Your task to perform on an android device: Search for the best rated circular saw on Lowes.com Image 0: 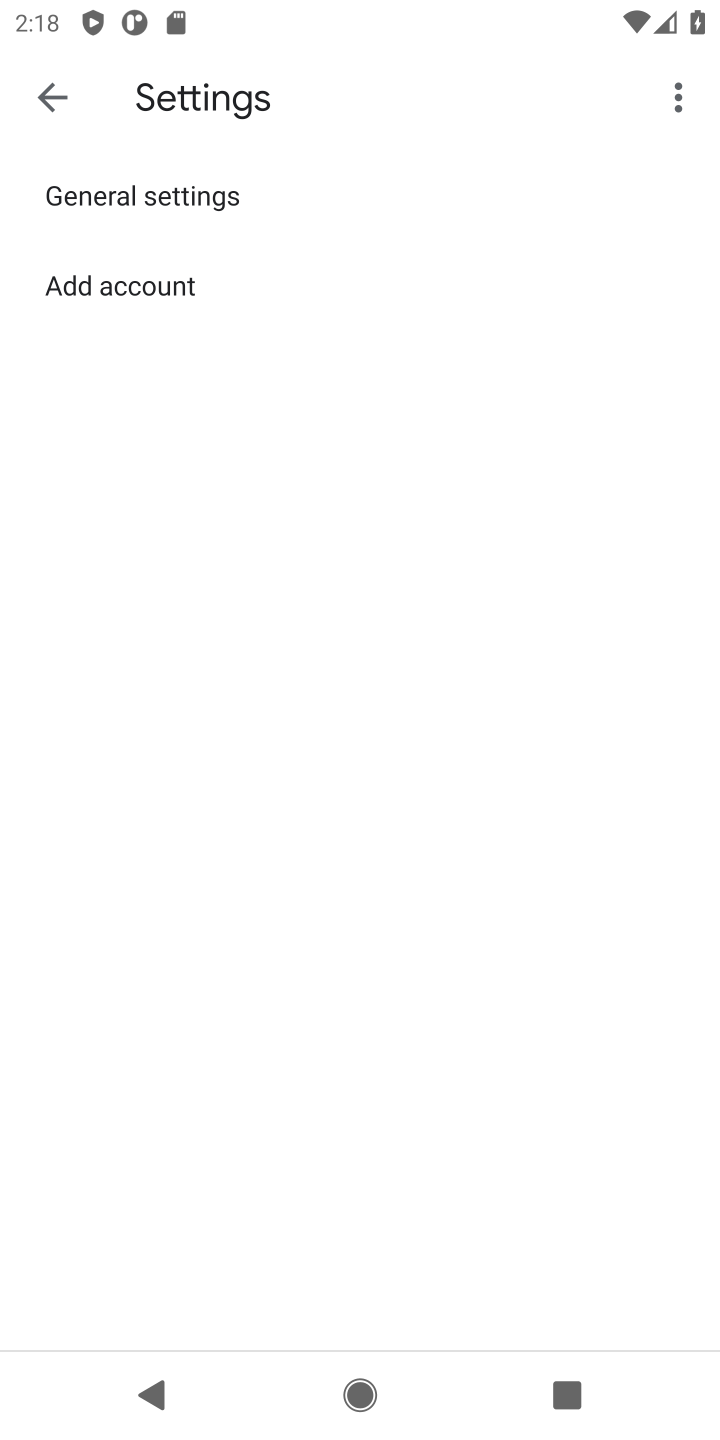
Step 0: click (312, 1419)
Your task to perform on an android device: Search for the best rated circular saw on Lowes.com Image 1: 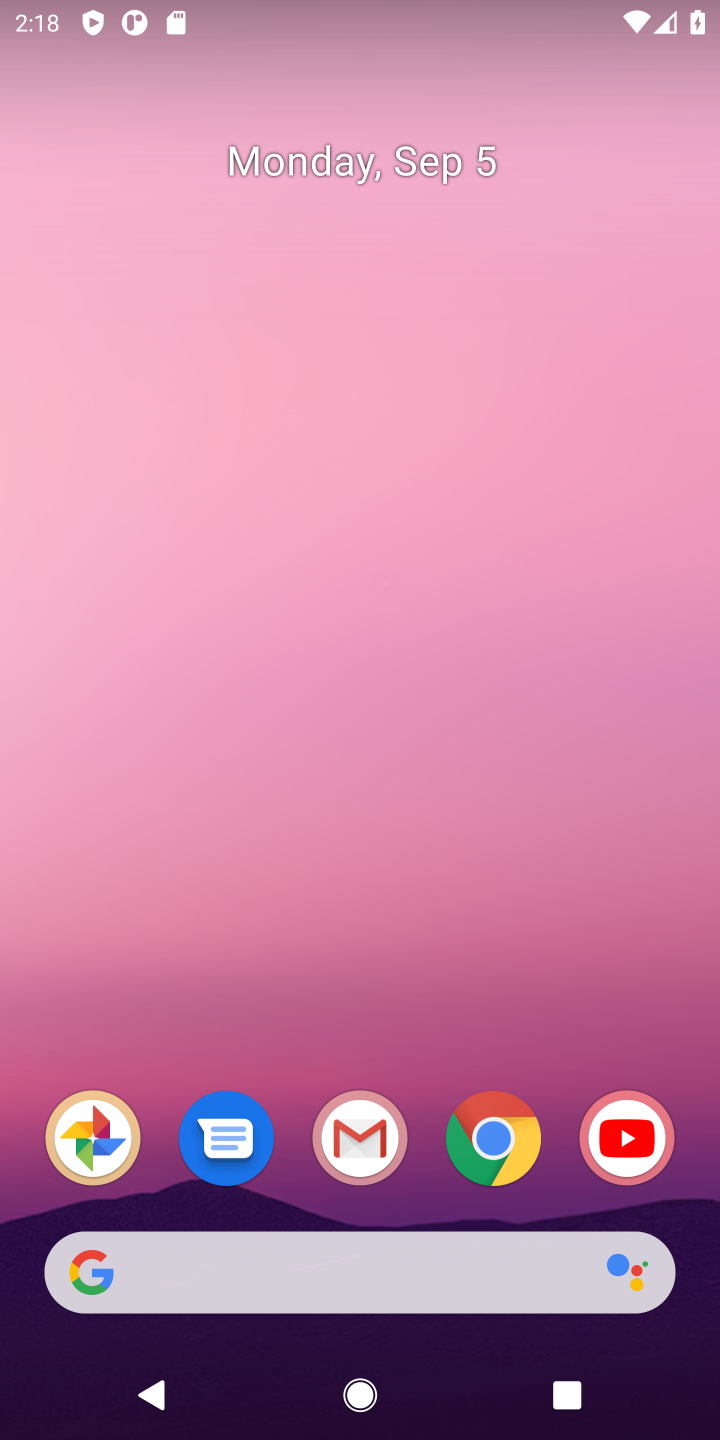
Step 1: press home button
Your task to perform on an android device: Search for the best rated circular saw on Lowes.com Image 2: 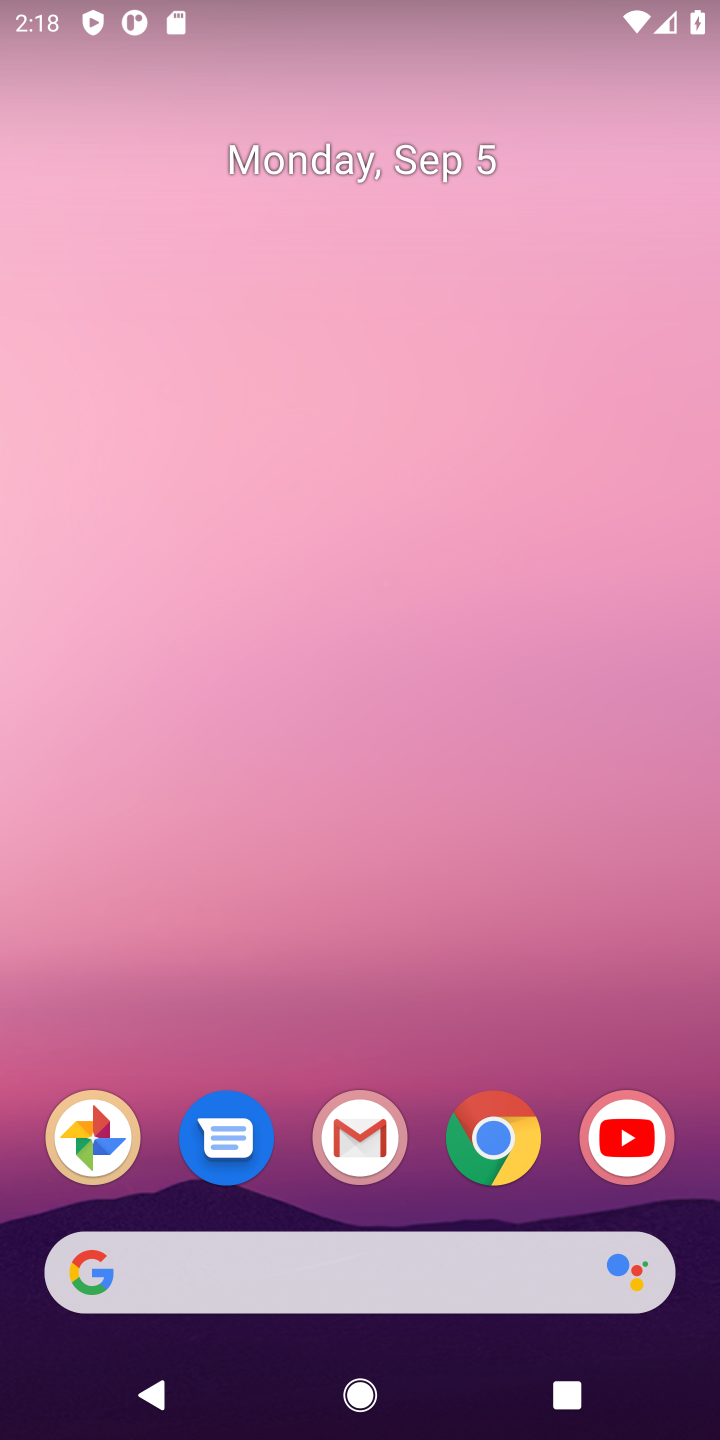
Step 2: click (462, 1151)
Your task to perform on an android device: Search for the best rated circular saw on Lowes.com Image 3: 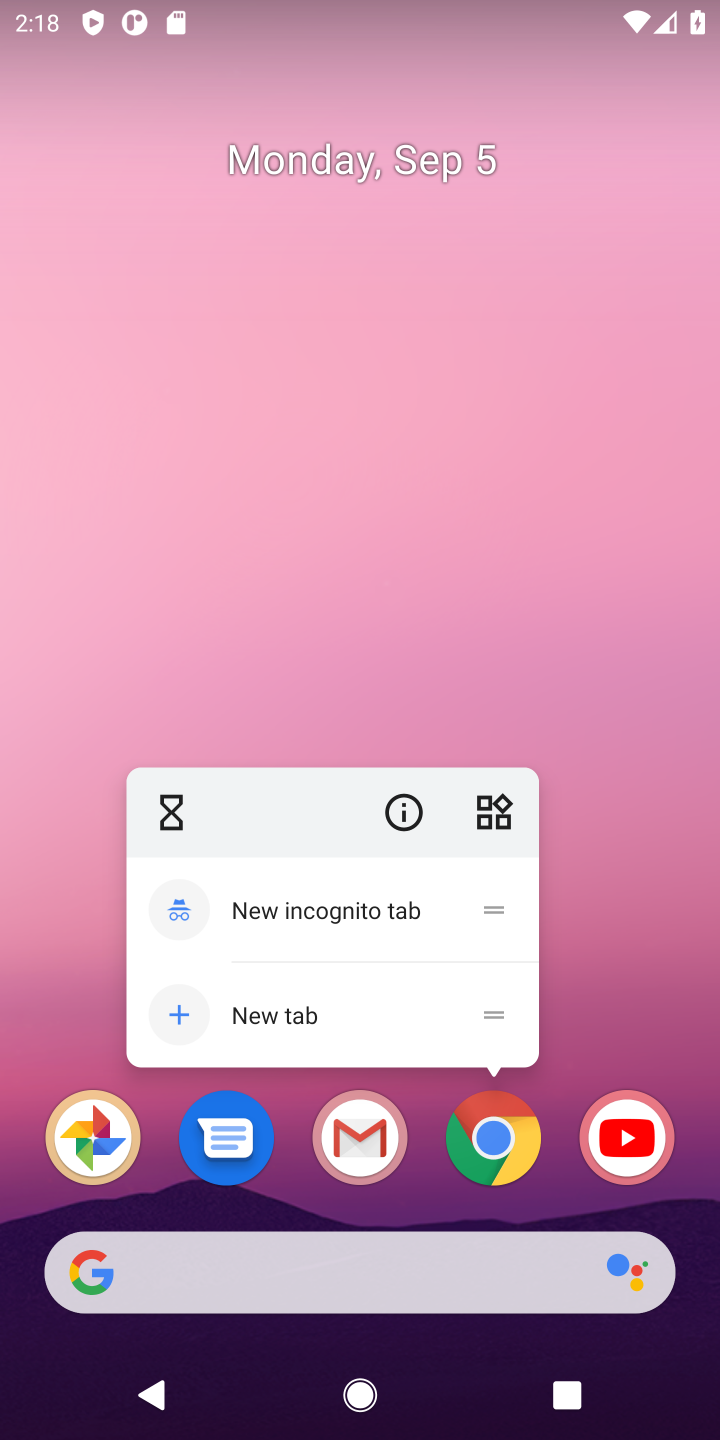
Step 3: click (525, 1143)
Your task to perform on an android device: Search for the best rated circular saw on Lowes.com Image 4: 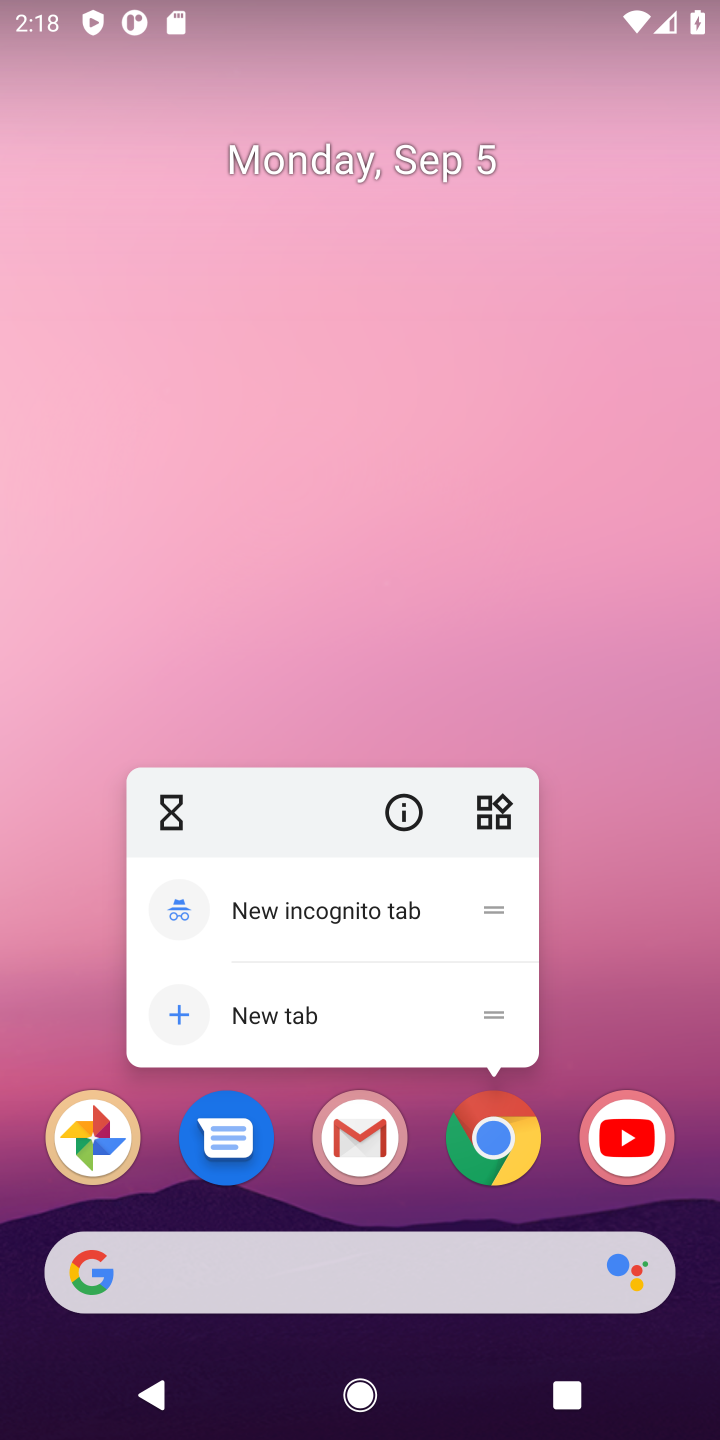
Step 4: click (487, 1151)
Your task to perform on an android device: Search for the best rated circular saw on Lowes.com Image 5: 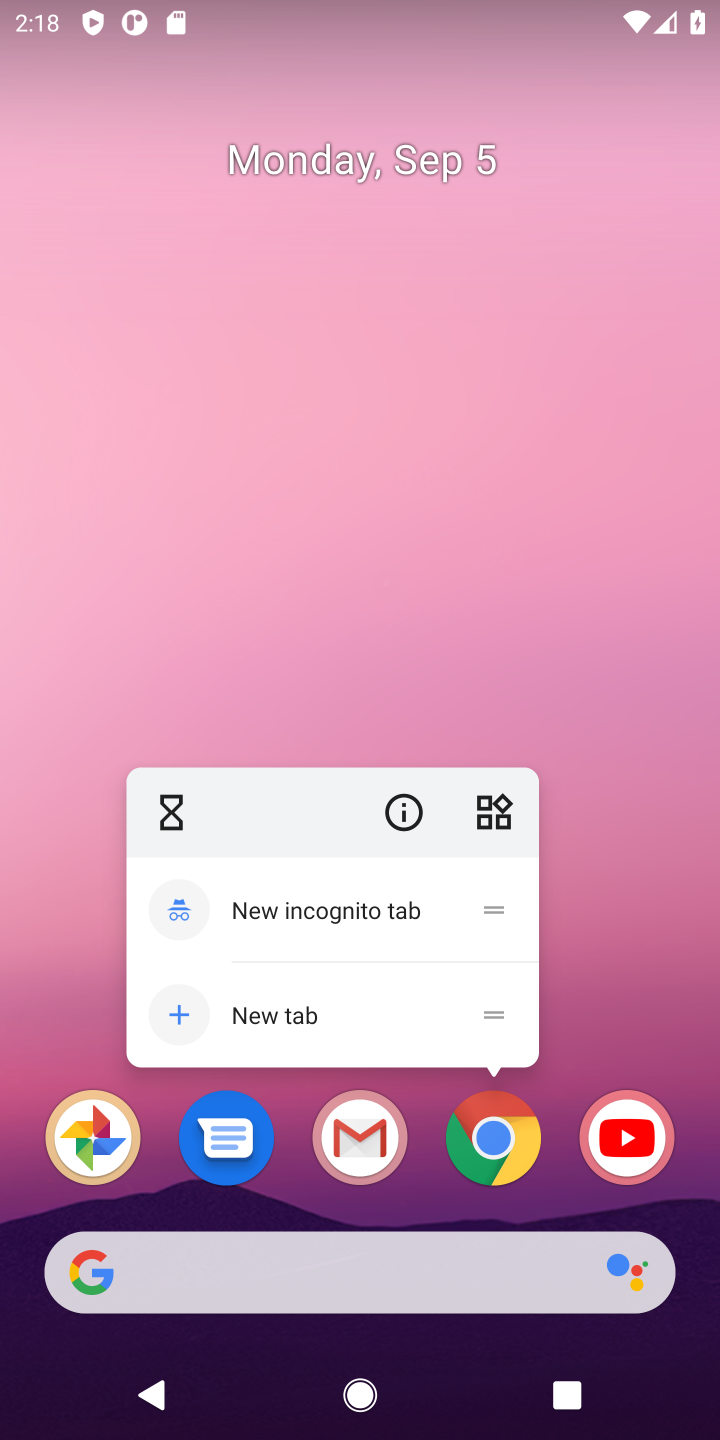
Step 5: click (487, 1141)
Your task to perform on an android device: Search for the best rated circular saw on Lowes.com Image 6: 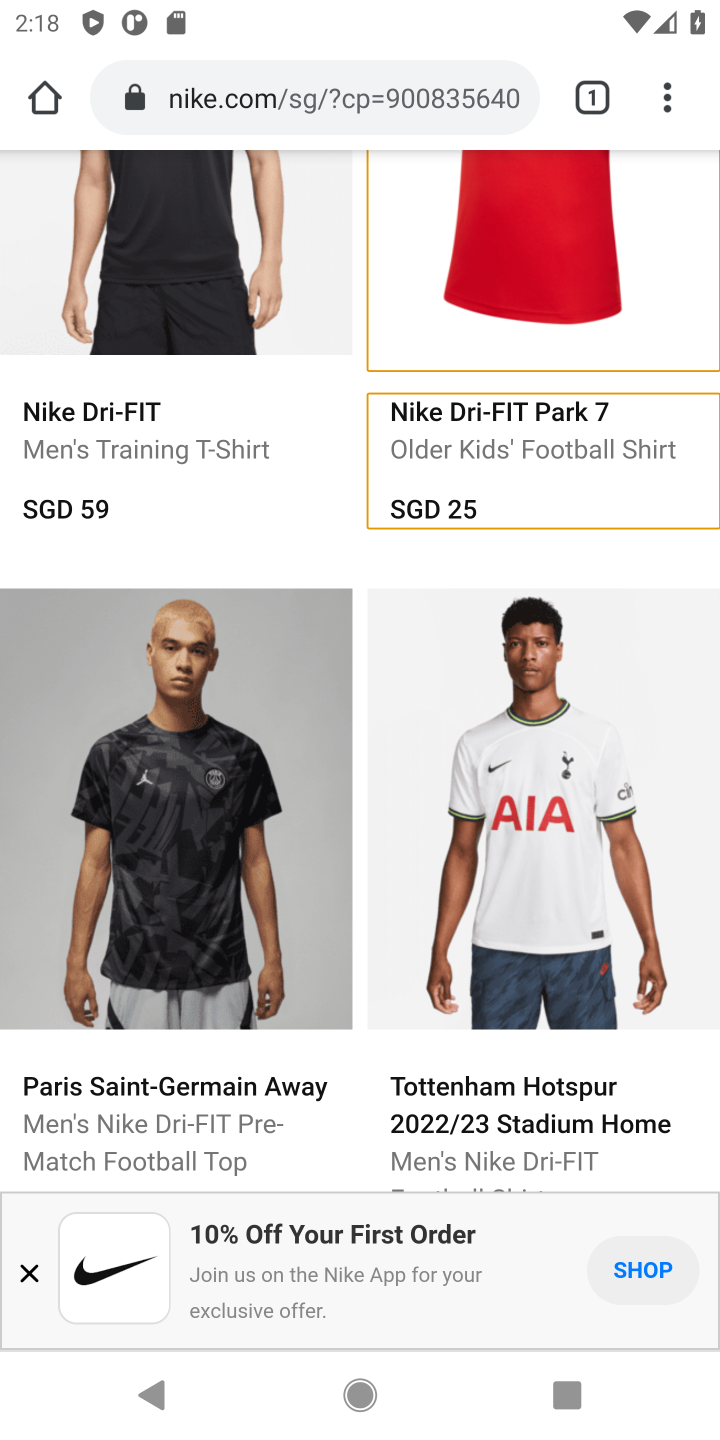
Step 6: click (335, 94)
Your task to perform on an android device: Search for the best rated circular saw on Lowes.com Image 7: 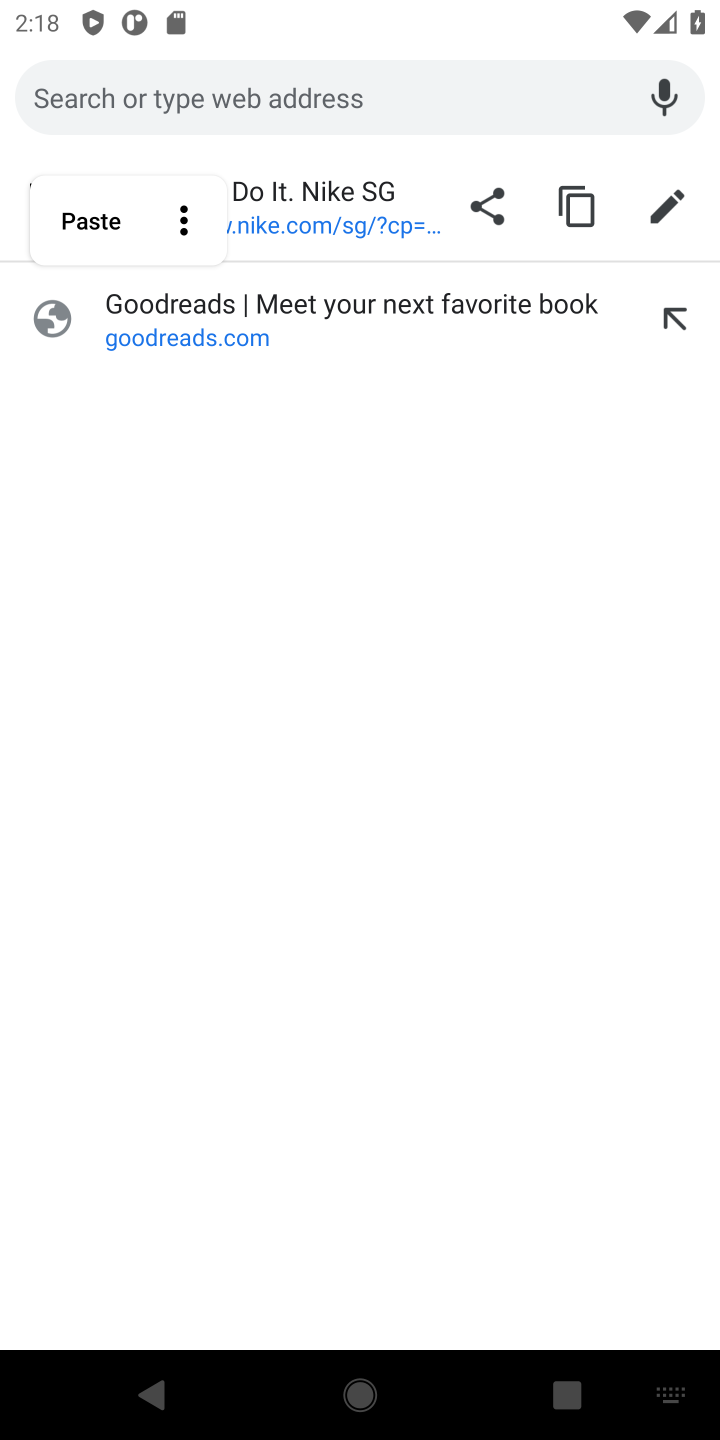
Step 7: type "lowes.com"
Your task to perform on an android device: Search for the best rated circular saw on Lowes.com Image 8: 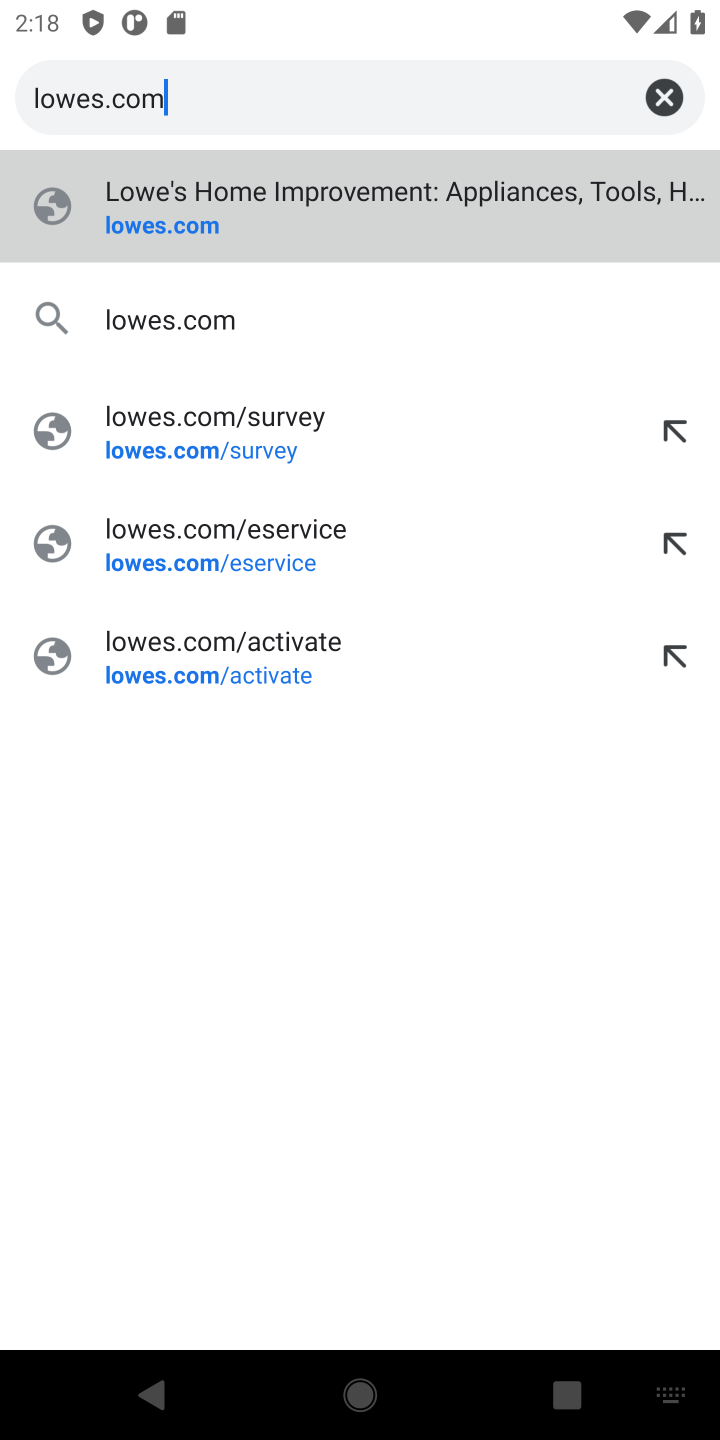
Step 8: type ""
Your task to perform on an android device: Search for the best rated circular saw on Lowes.com Image 9: 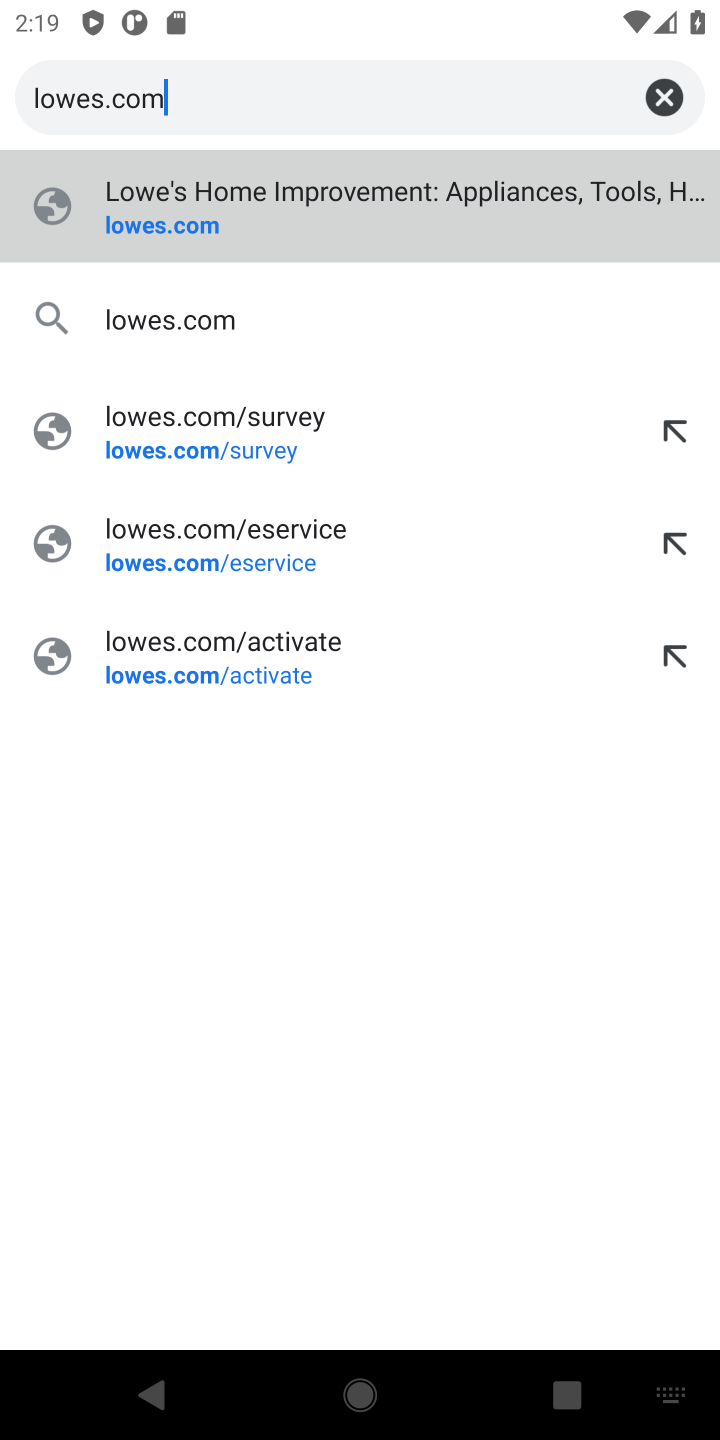
Step 9: click (173, 435)
Your task to perform on an android device: Search for the best rated circular saw on Lowes.com Image 10: 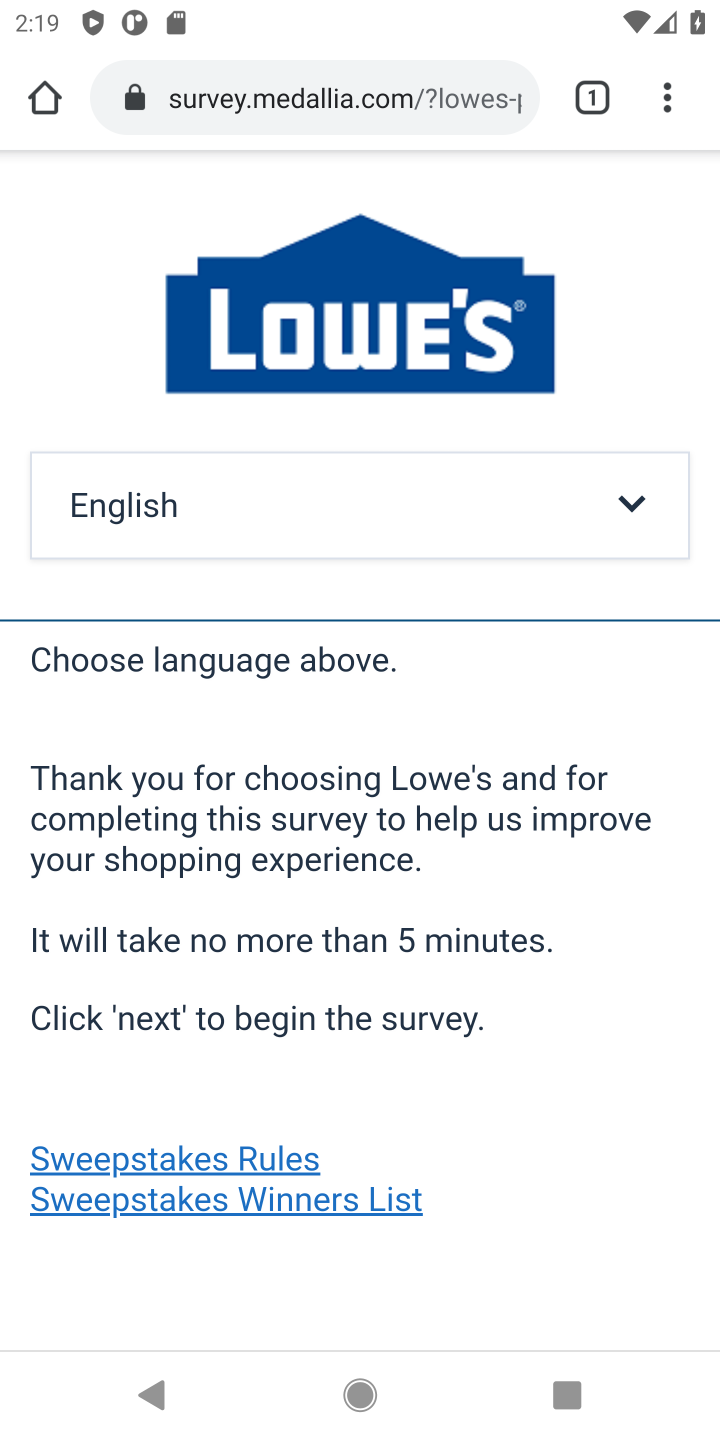
Step 10: click (348, 504)
Your task to perform on an android device: Search for the best rated circular saw on Lowes.com Image 11: 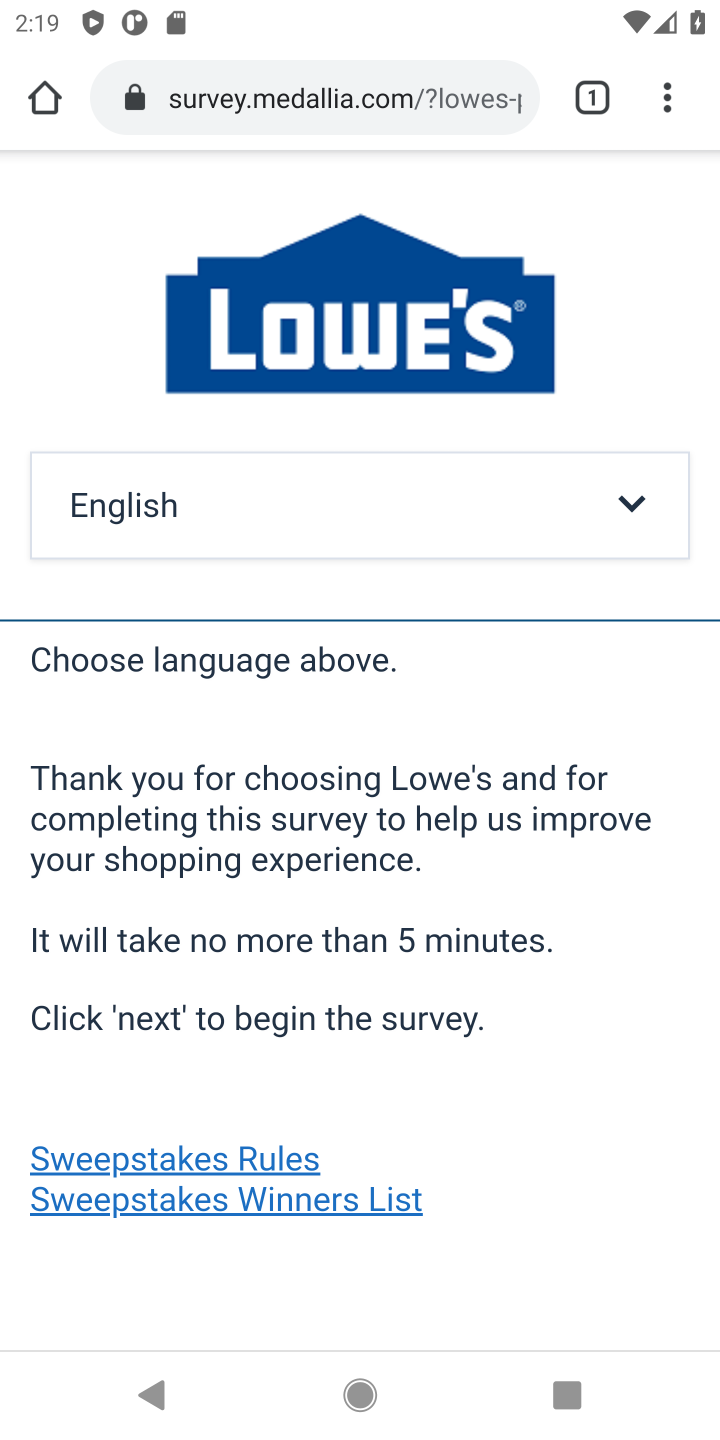
Step 11: click (474, 513)
Your task to perform on an android device: Search for the best rated circular saw on Lowes.com Image 12: 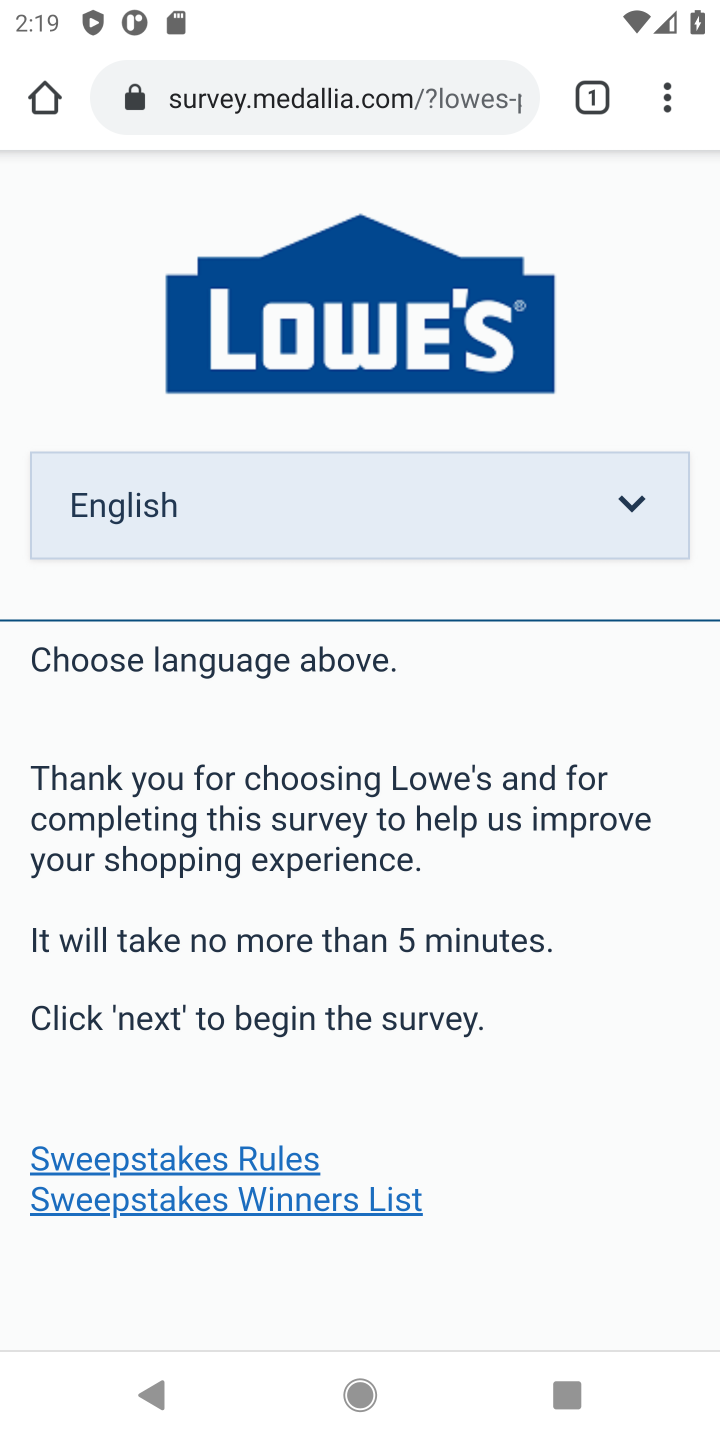
Step 12: click (635, 498)
Your task to perform on an android device: Search for the best rated circular saw on Lowes.com Image 13: 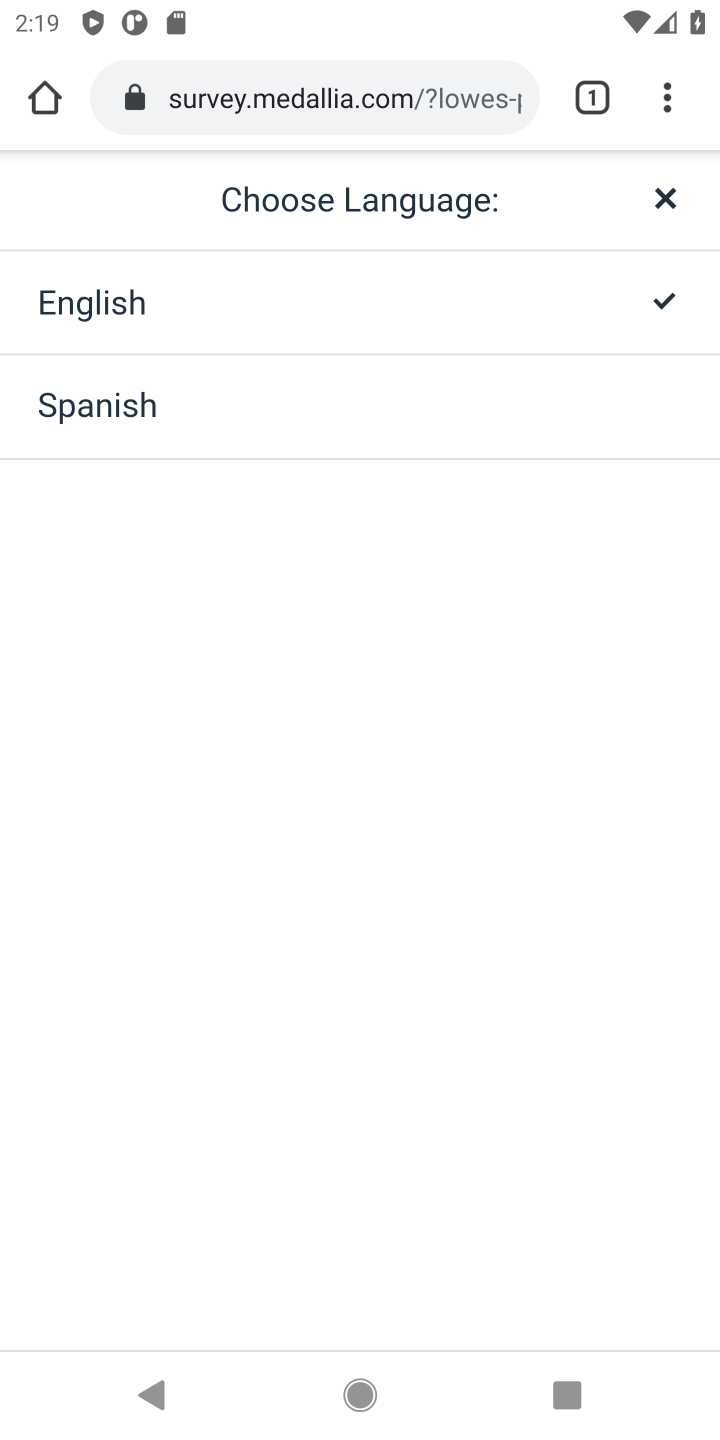
Step 13: click (674, 196)
Your task to perform on an android device: Search for the best rated circular saw on Lowes.com Image 14: 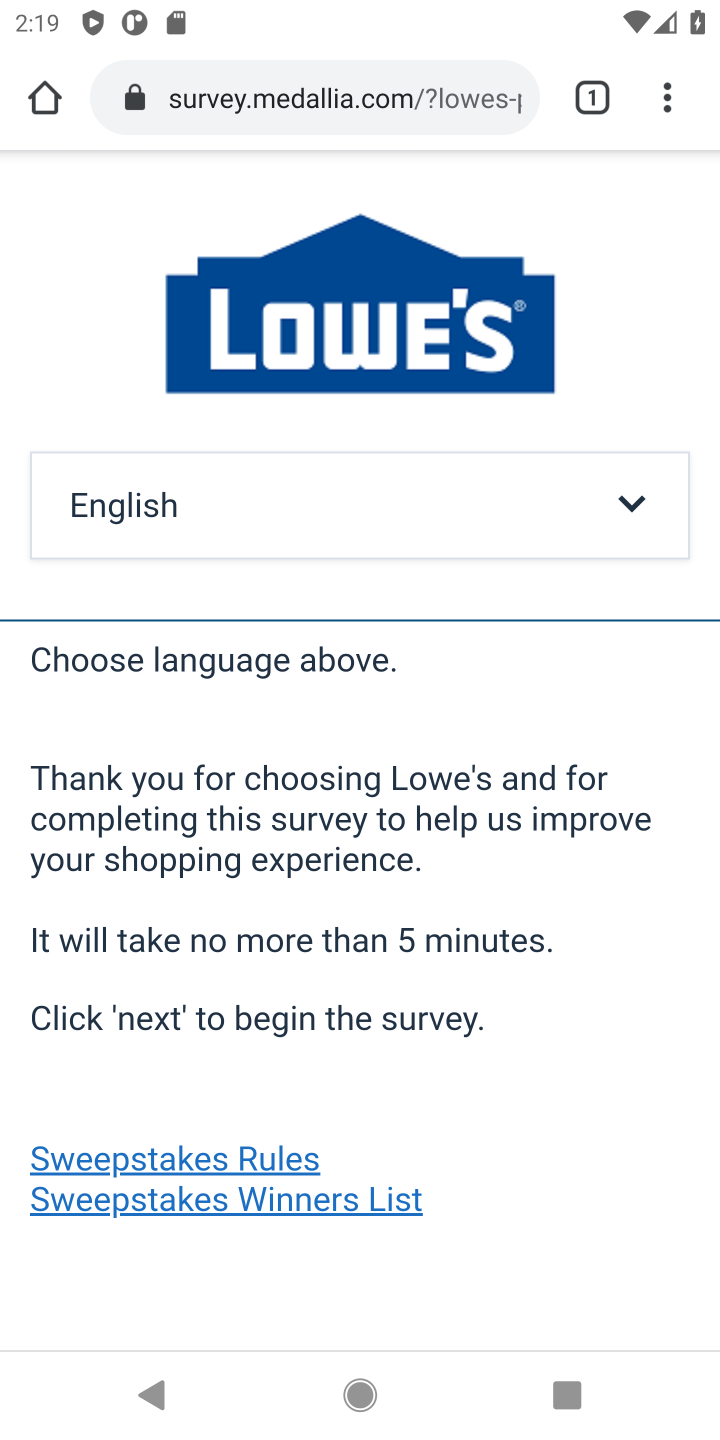
Step 14: click (225, 518)
Your task to perform on an android device: Search for the best rated circular saw on Lowes.com Image 15: 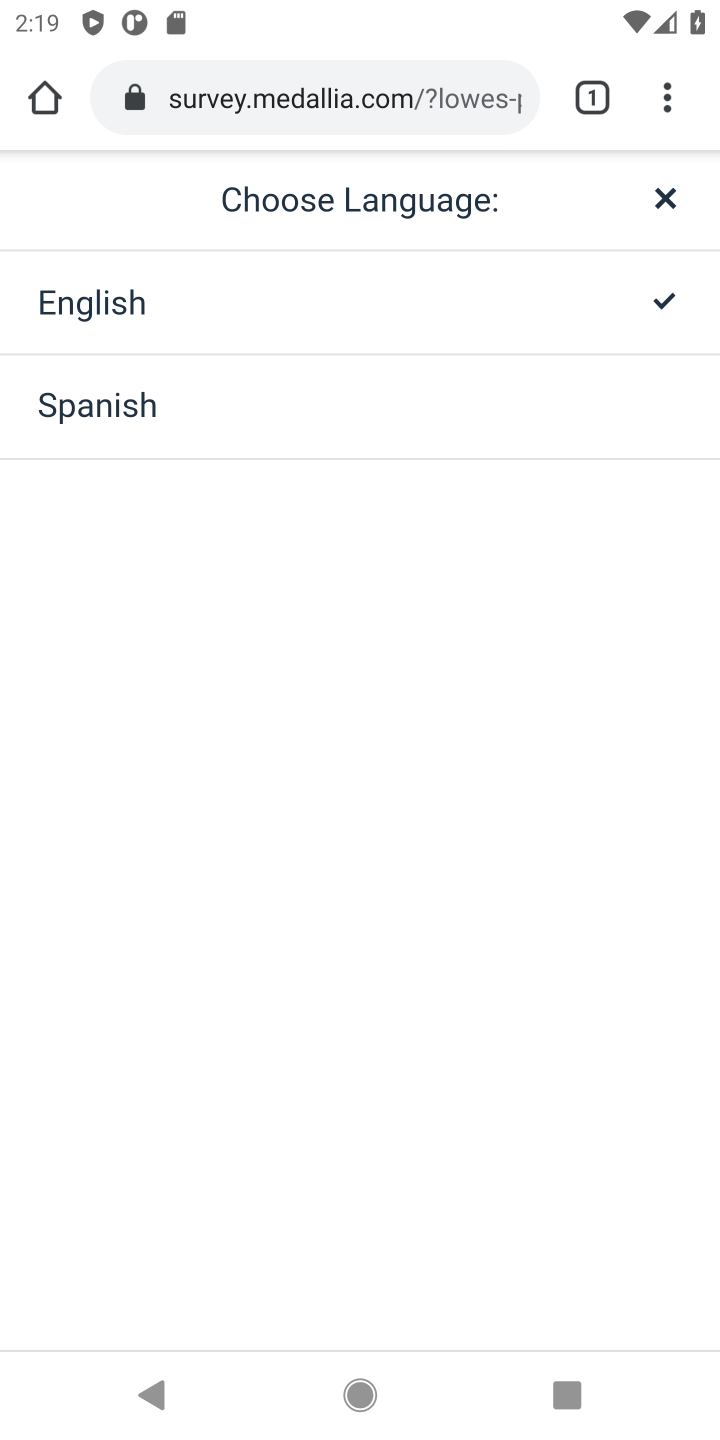
Step 15: click (61, 290)
Your task to perform on an android device: Search for the best rated circular saw on Lowes.com Image 16: 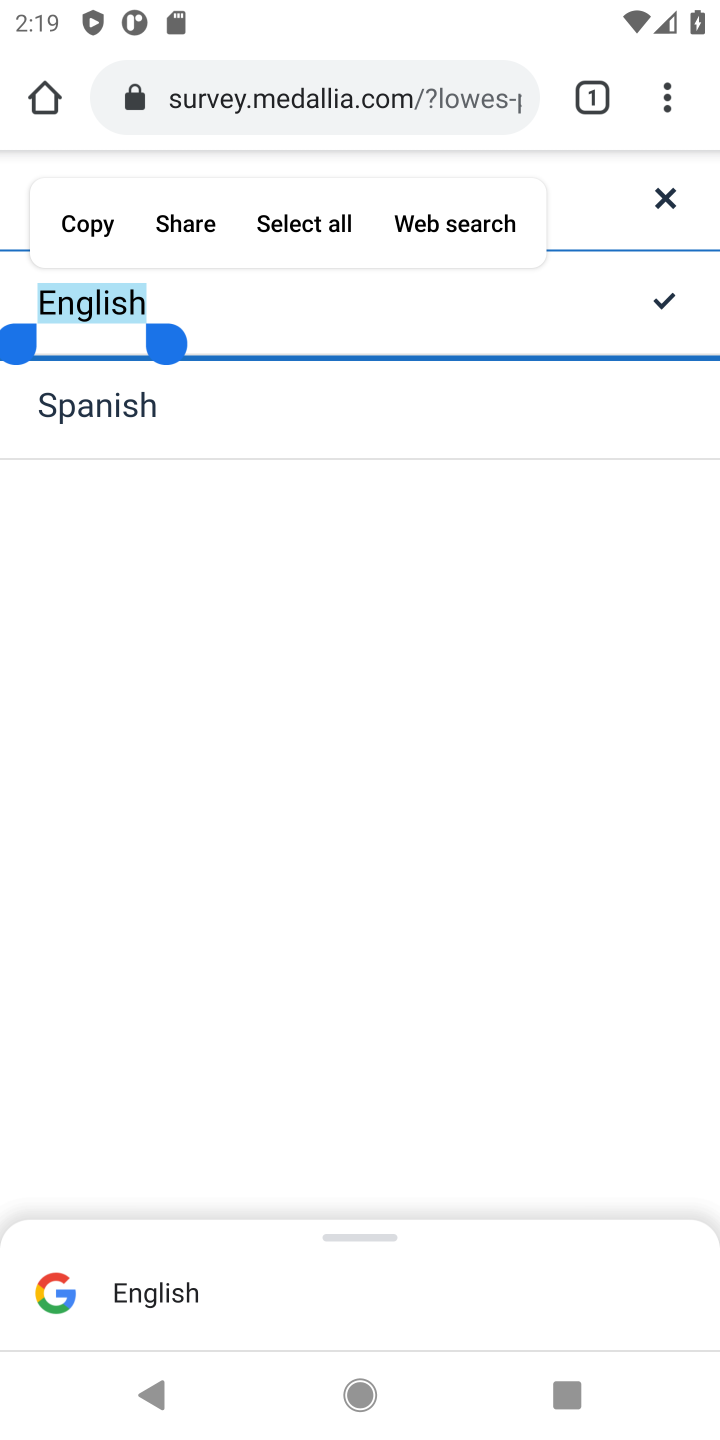
Step 16: click (525, 724)
Your task to perform on an android device: Search for the best rated circular saw on Lowes.com Image 17: 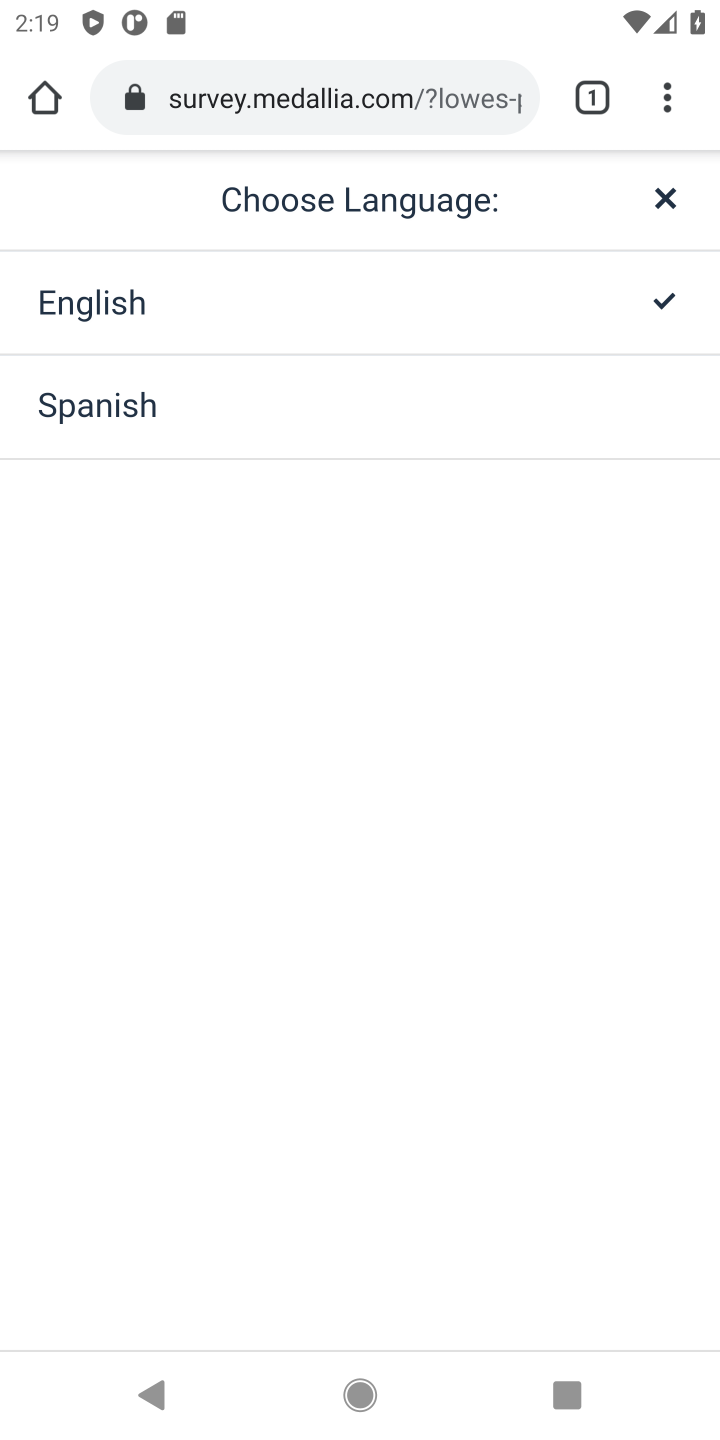
Step 17: click (663, 308)
Your task to perform on an android device: Search for the best rated circular saw on Lowes.com Image 18: 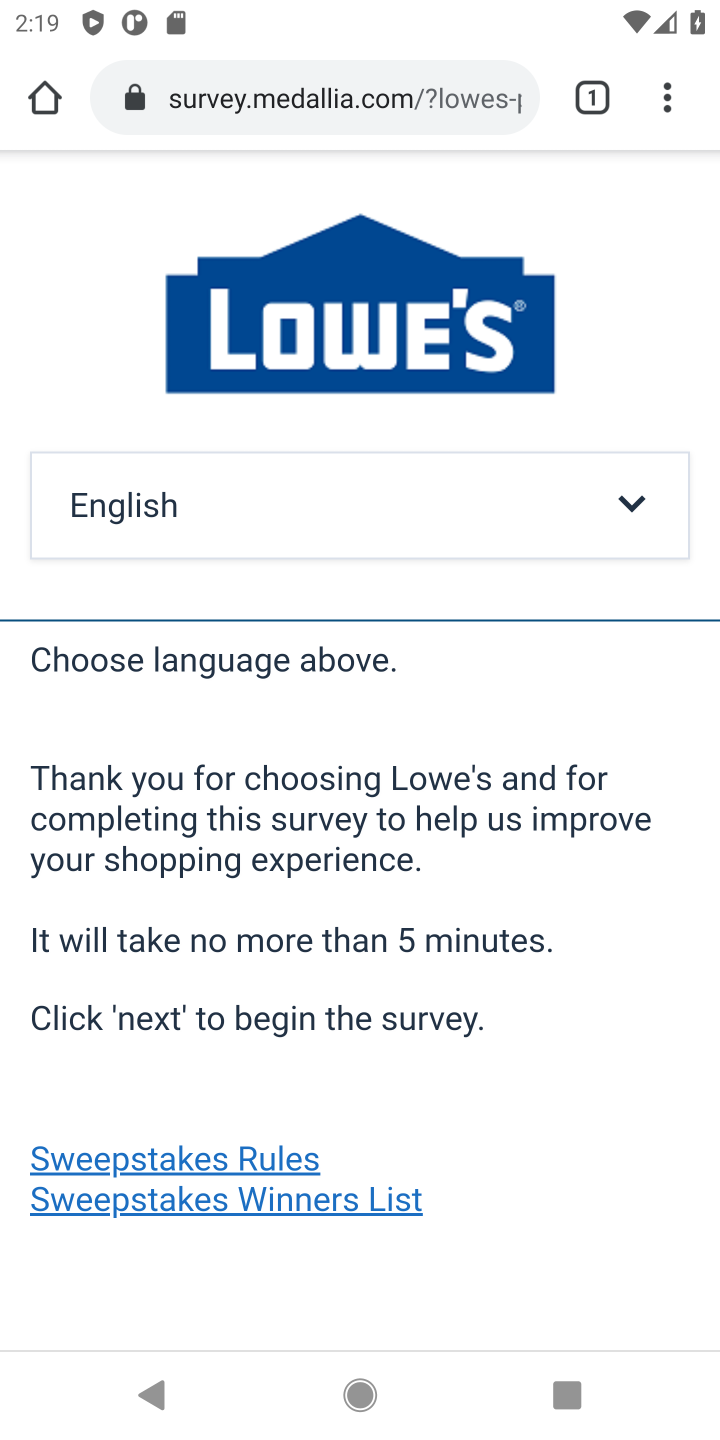
Step 18: click (684, 818)
Your task to perform on an android device: Search for the best rated circular saw on Lowes.com Image 19: 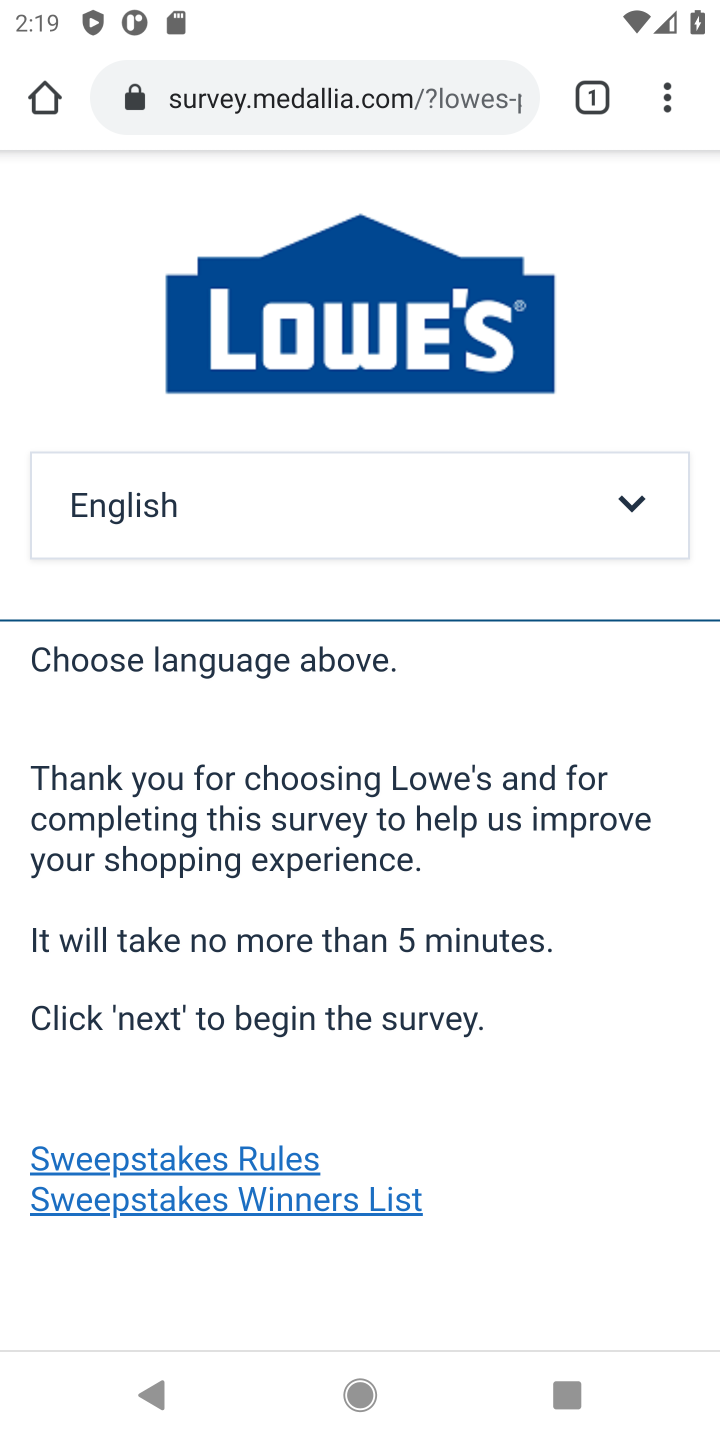
Step 19: drag from (596, 1029) to (569, 514)
Your task to perform on an android device: Search for the best rated circular saw on Lowes.com Image 20: 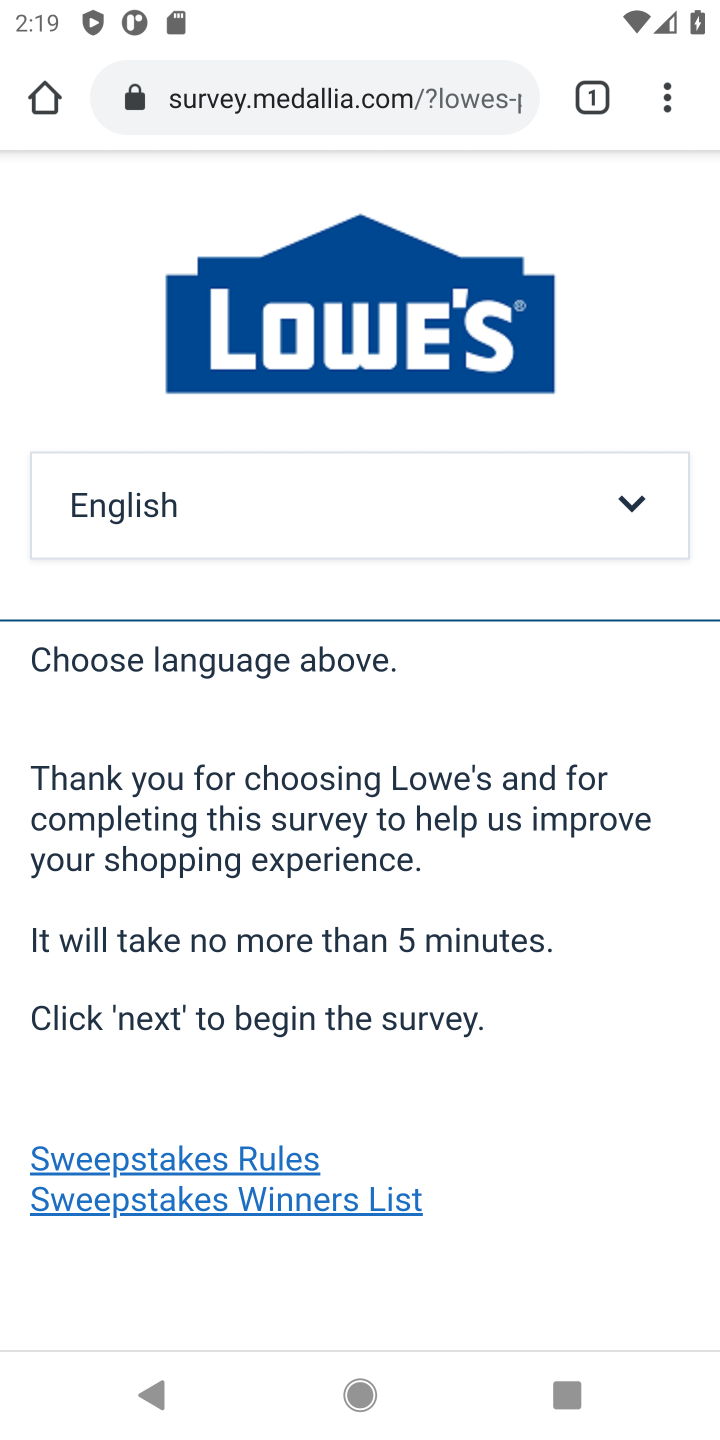
Step 20: press back button
Your task to perform on an android device: Search for the best rated circular saw on Lowes.com Image 21: 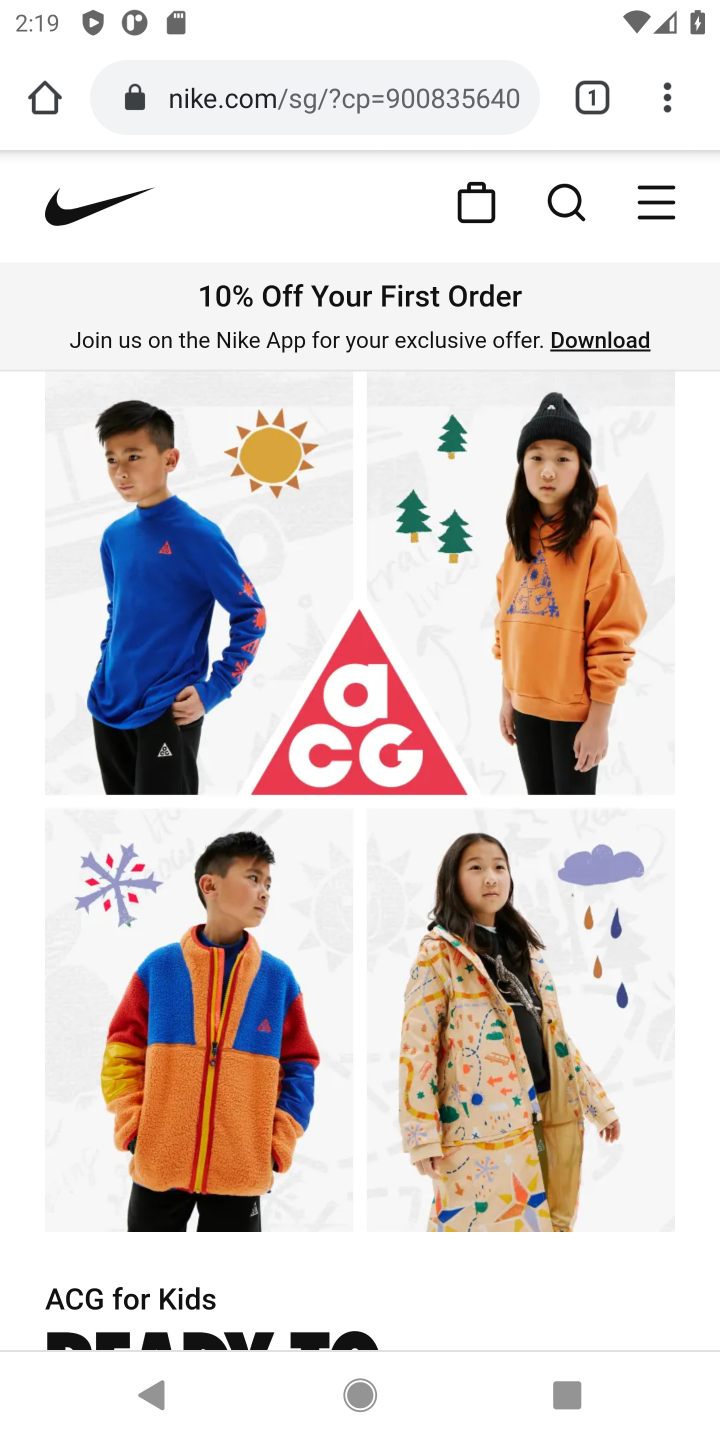
Step 21: click (242, 116)
Your task to perform on an android device: Search for the best rated circular saw on Lowes.com Image 22: 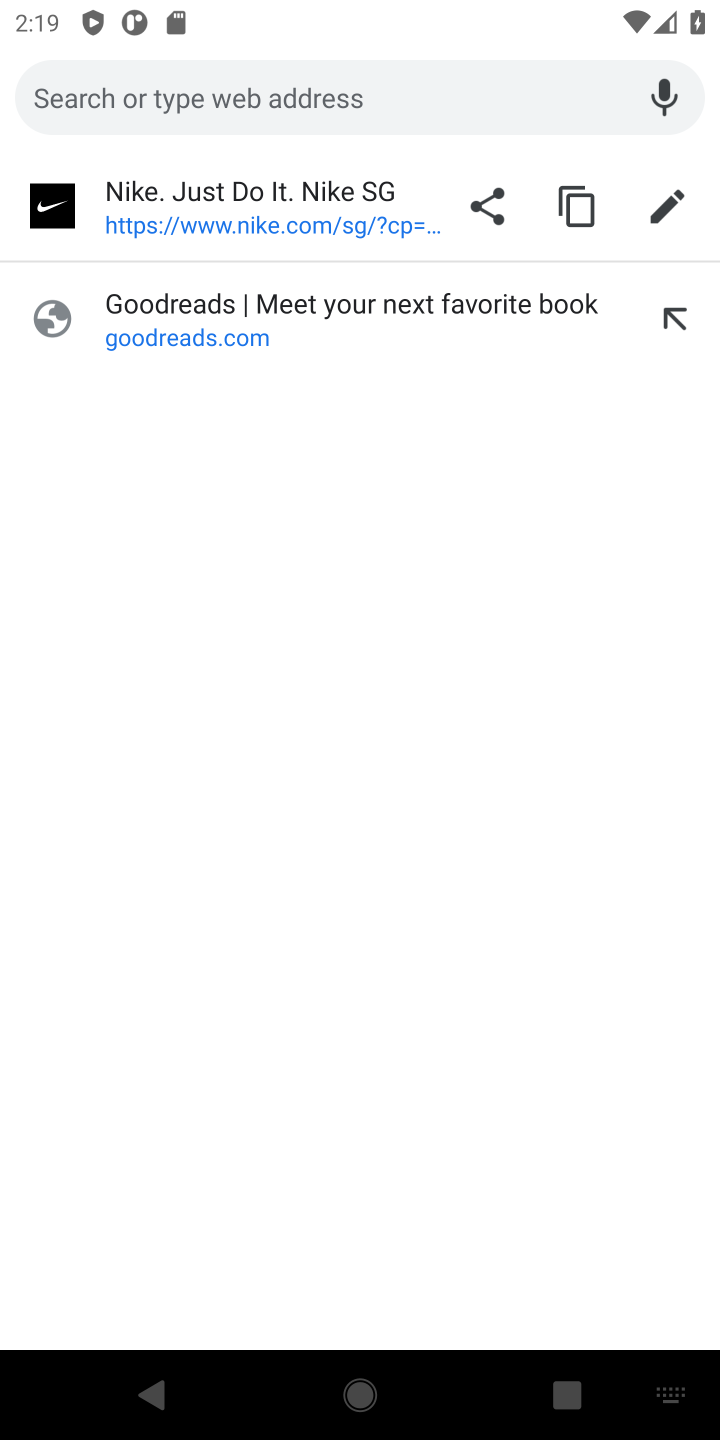
Step 22: type "lowes.com"
Your task to perform on an android device: Search for the best rated circular saw on Lowes.com Image 23: 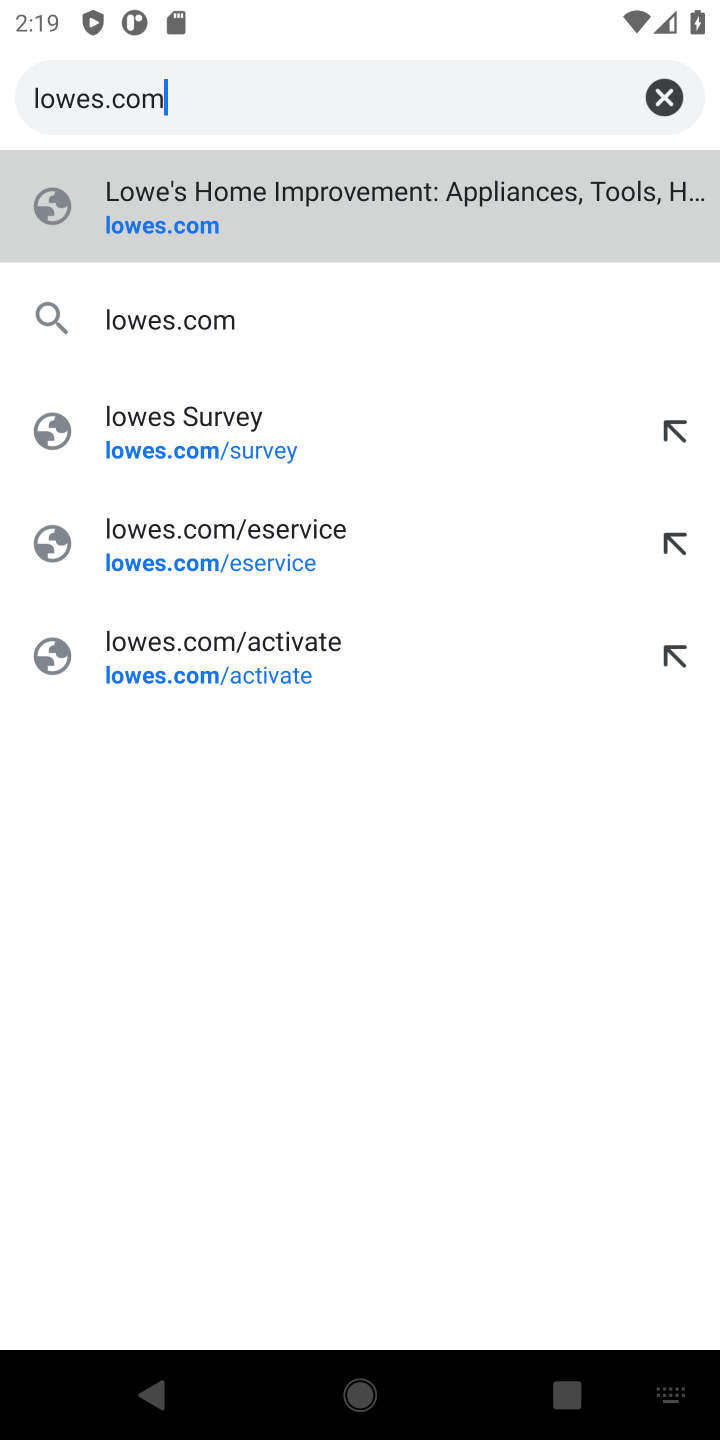
Step 23: click (125, 221)
Your task to perform on an android device: Search for the best rated circular saw on Lowes.com Image 24: 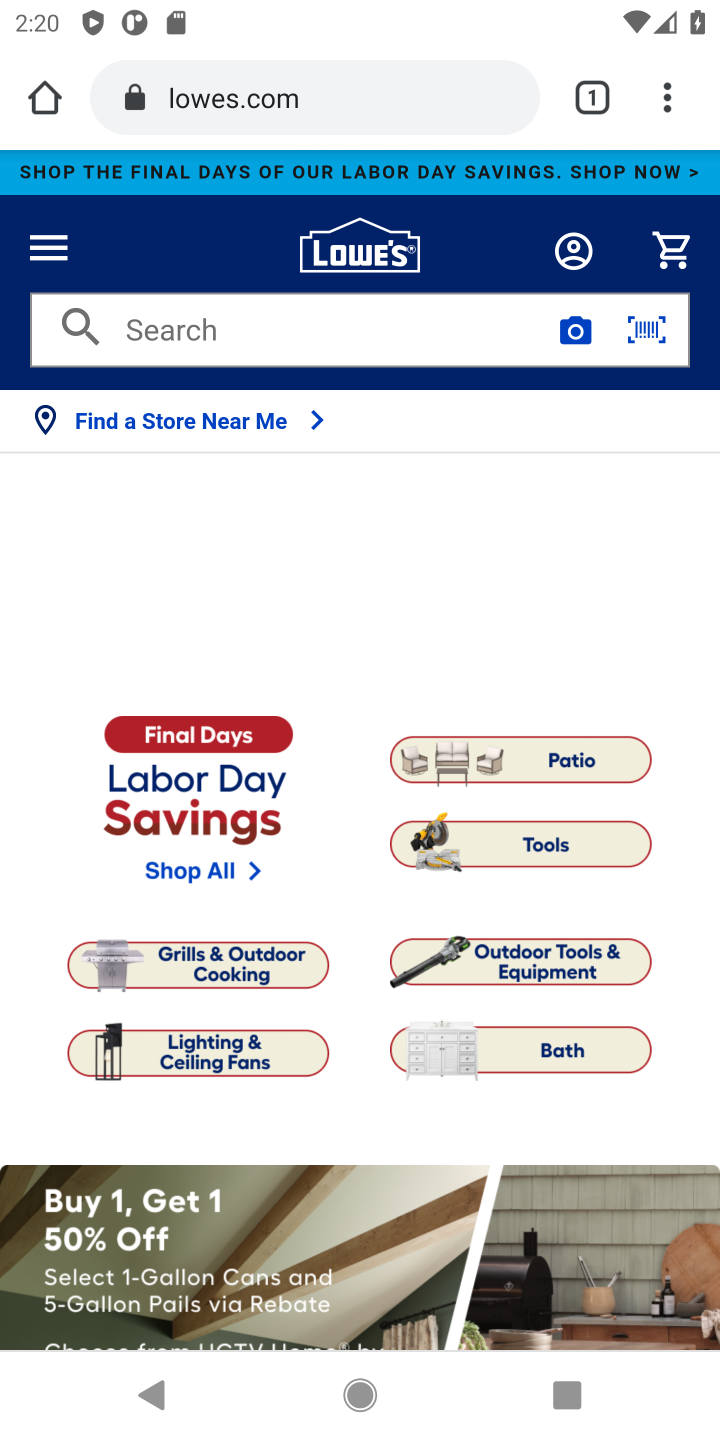
Step 24: click (177, 328)
Your task to perform on an android device: Search for the best rated circular saw on Lowes.com Image 25: 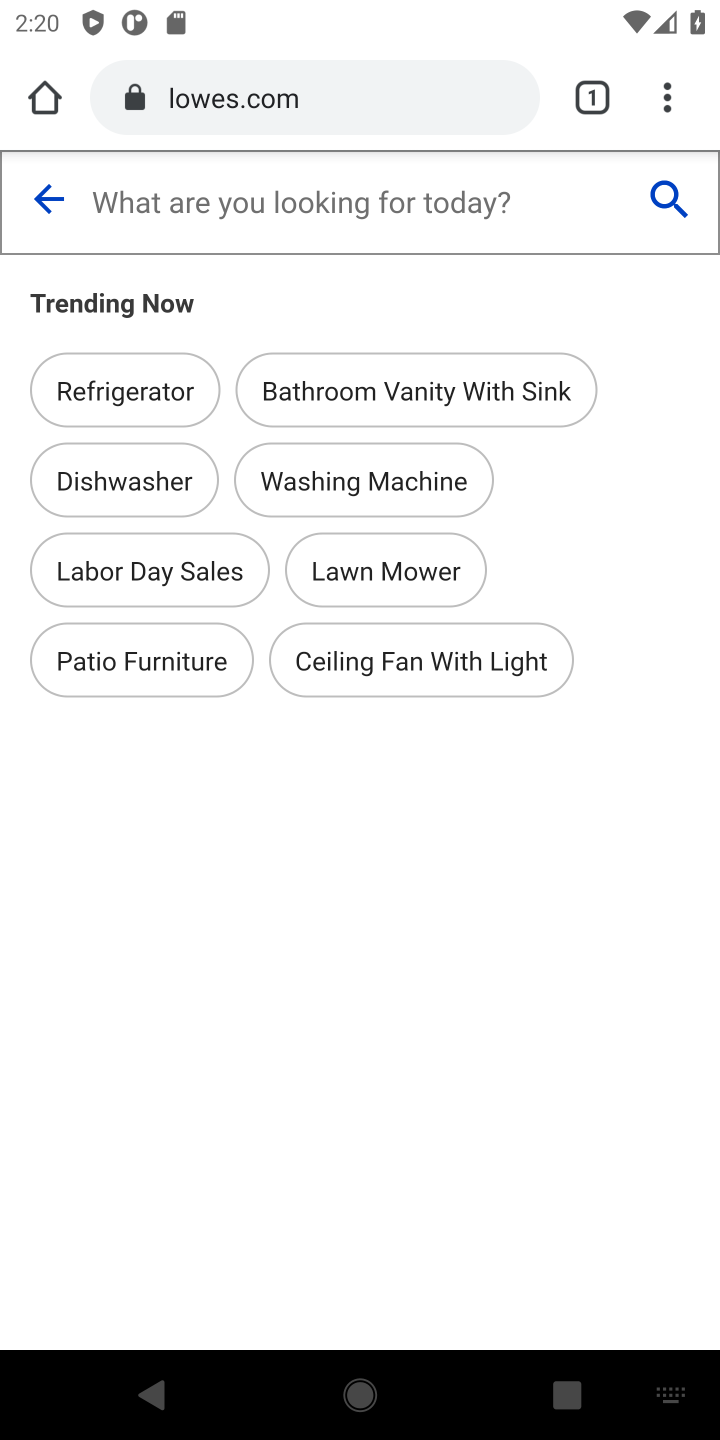
Step 25: type "circular saw"
Your task to perform on an android device: Search for the best rated circular saw on Lowes.com Image 26: 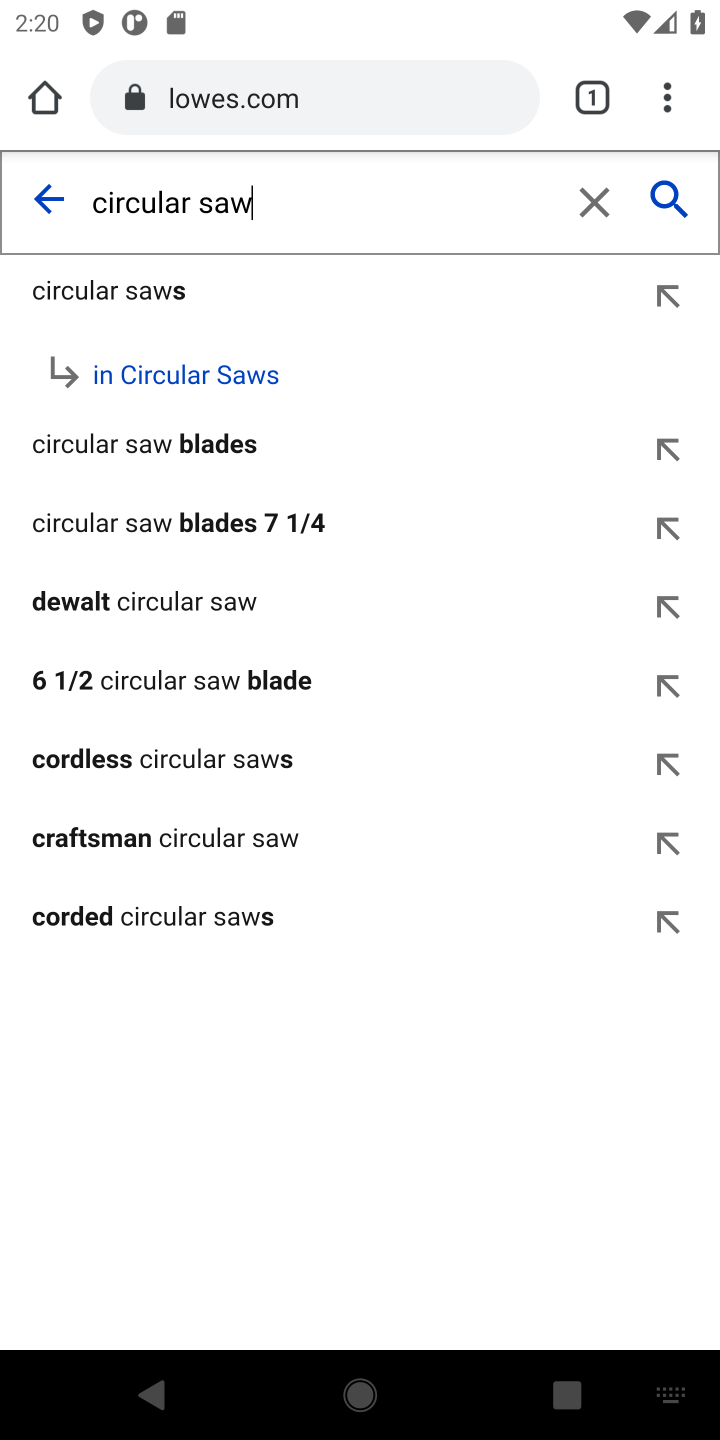
Step 26: click (151, 385)
Your task to perform on an android device: Search for the best rated circular saw on Lowes.com Image 27: 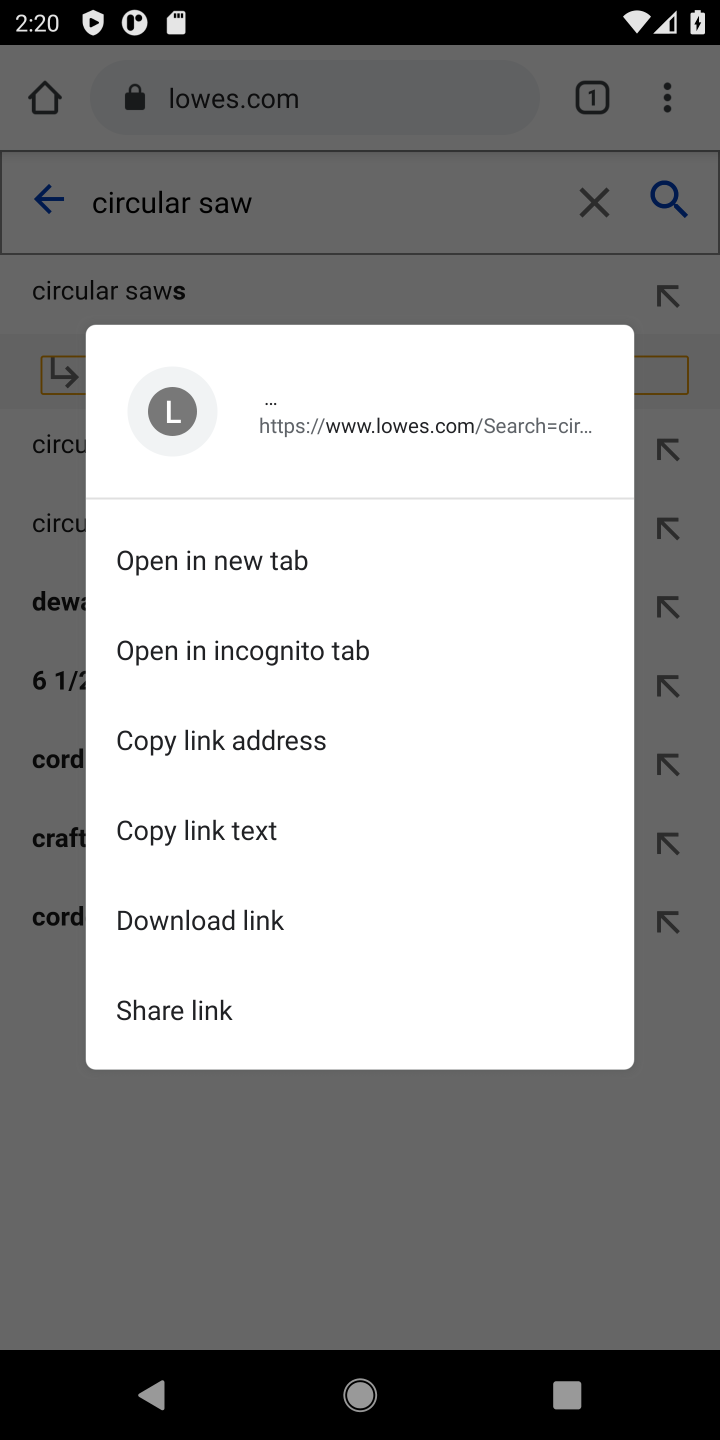
Step 27: click (520, 1178)
Your task to perform on an android device: Search for the best rated circular saw on Lowes.com Image 28: 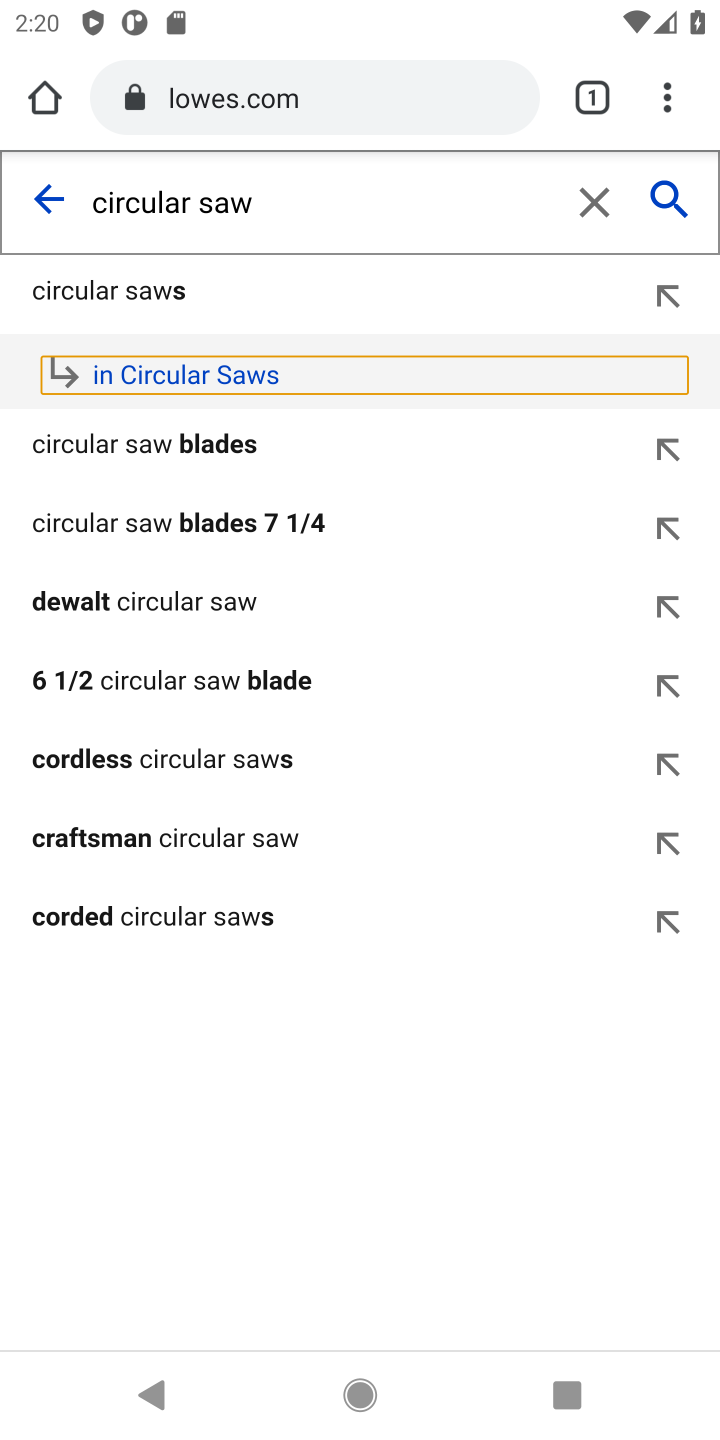
Step 28: press enter
Your task to perform on an android device: Search for the best rated circular saw on Lowes.com Image 29: 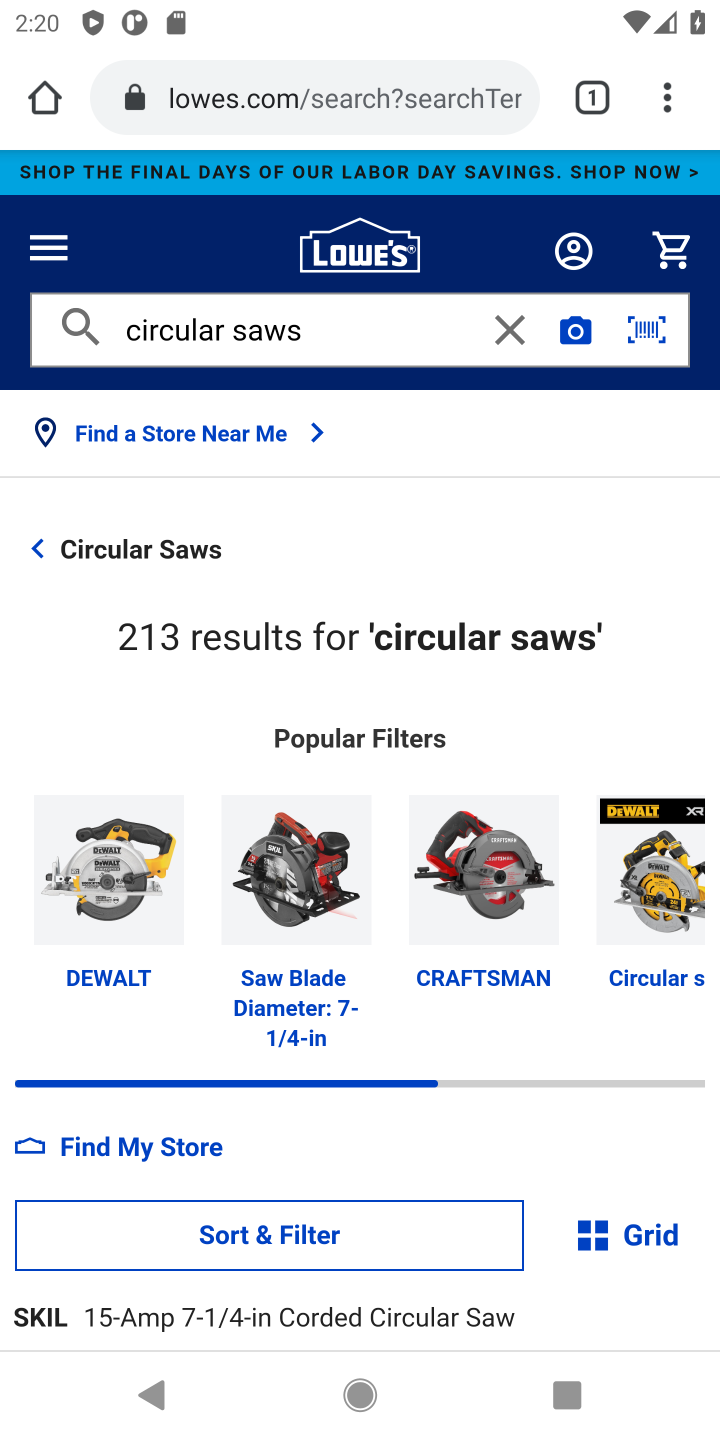
Step 29: click (199, 1235)
Your task to perform on an android device: Search for the best rated circular saw on Lowes.com Image 30: 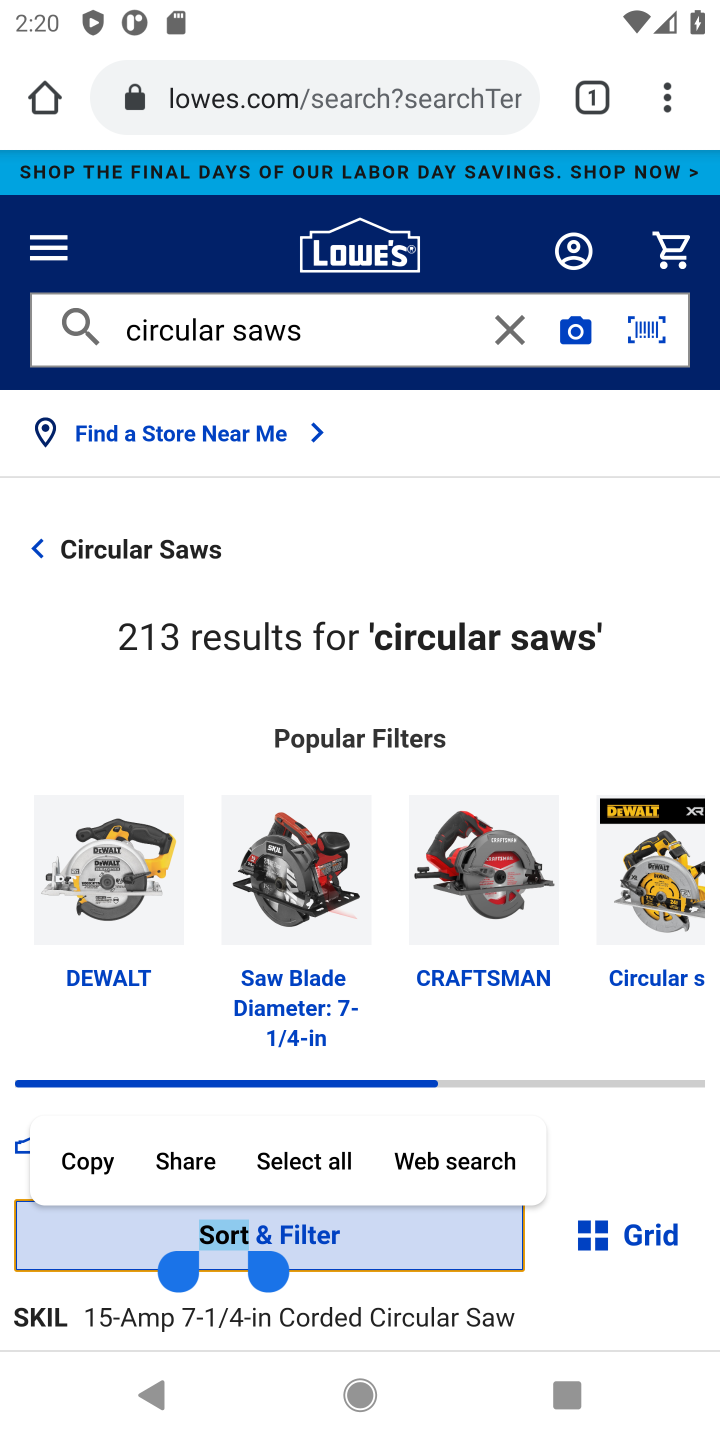
Step 30: drag from (677, 1059) to (586, 602)
Your task to perform on an android device: Search for the best rated circular saw on Lowes.com Image 31: 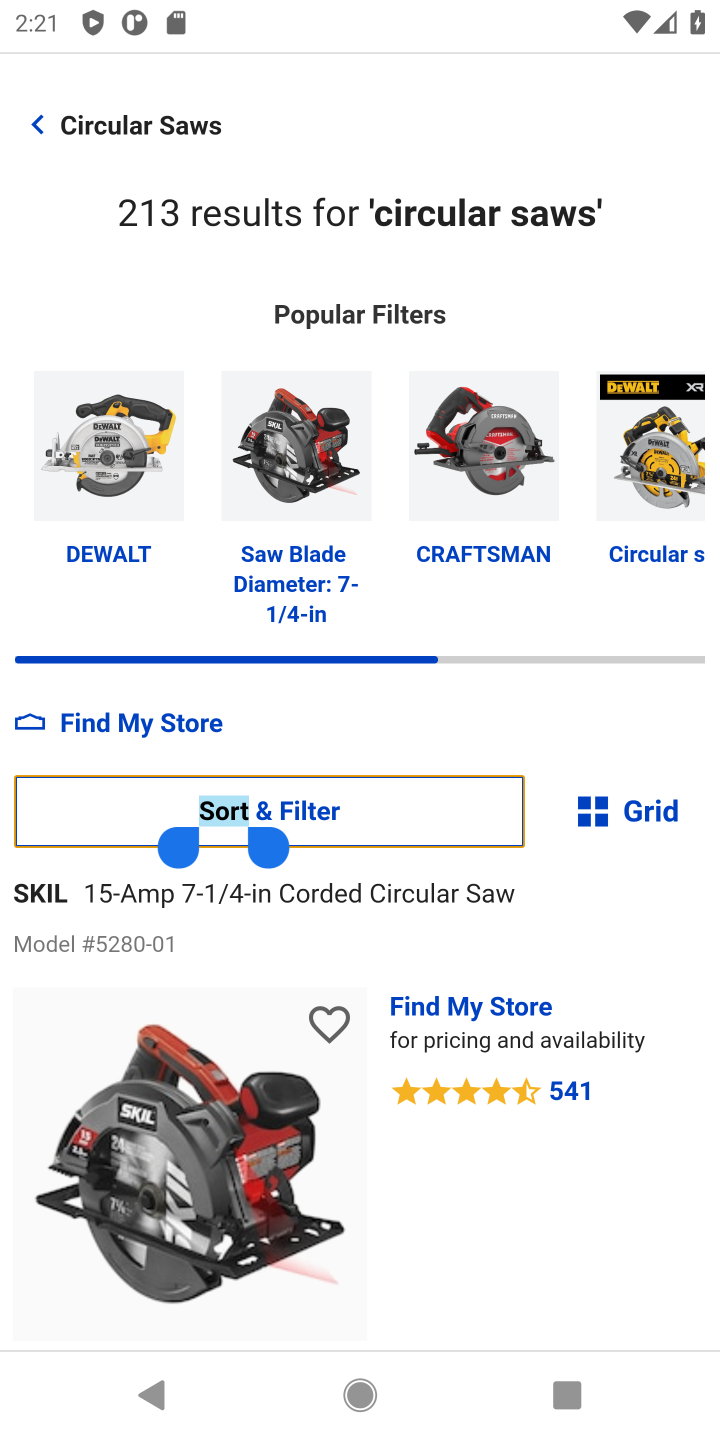
Step 31: drag from (321, 586) to (292, 794)
Your task to perform on an android device: Search for the best rated circular saw on Lowes.com Image 32: 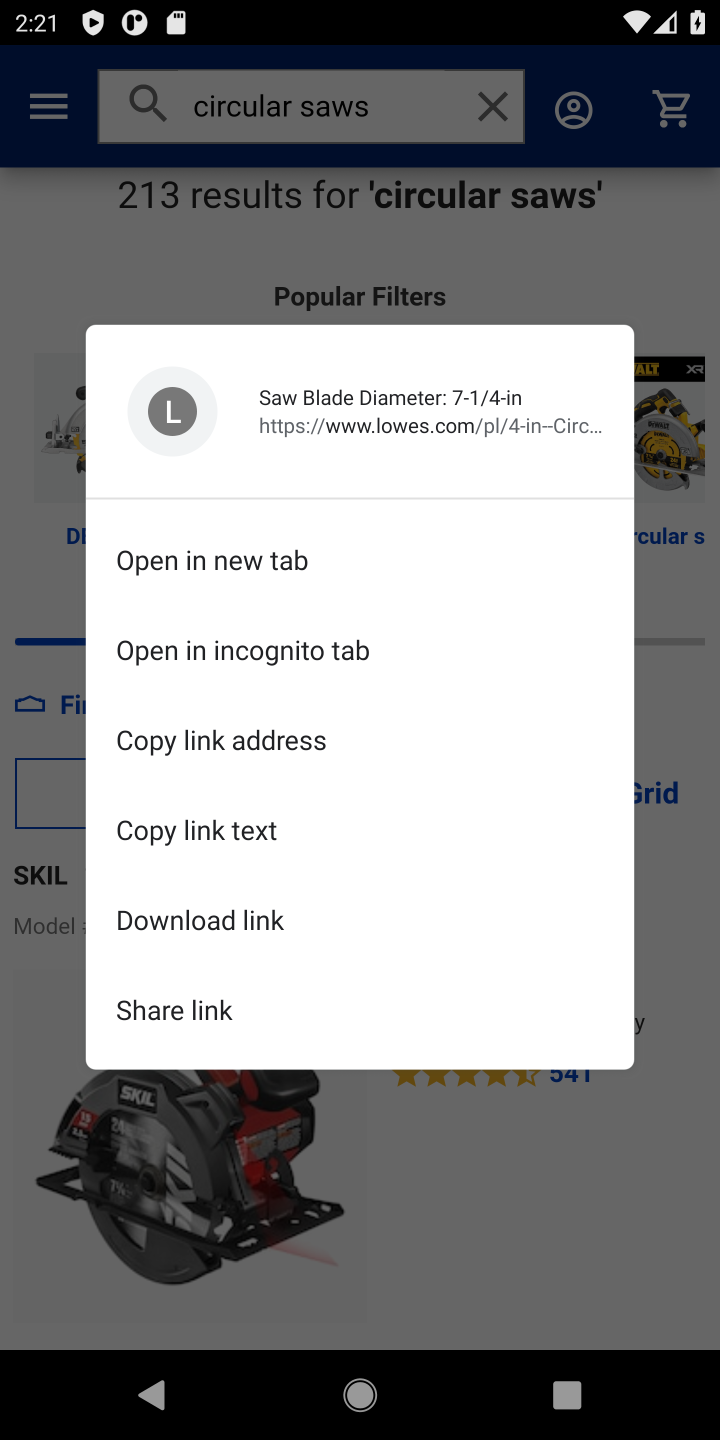
Step 32: click (670, 1028)
Your task to perform on an android device: Search for the best rated circular saw on Lowes.com Image 33: 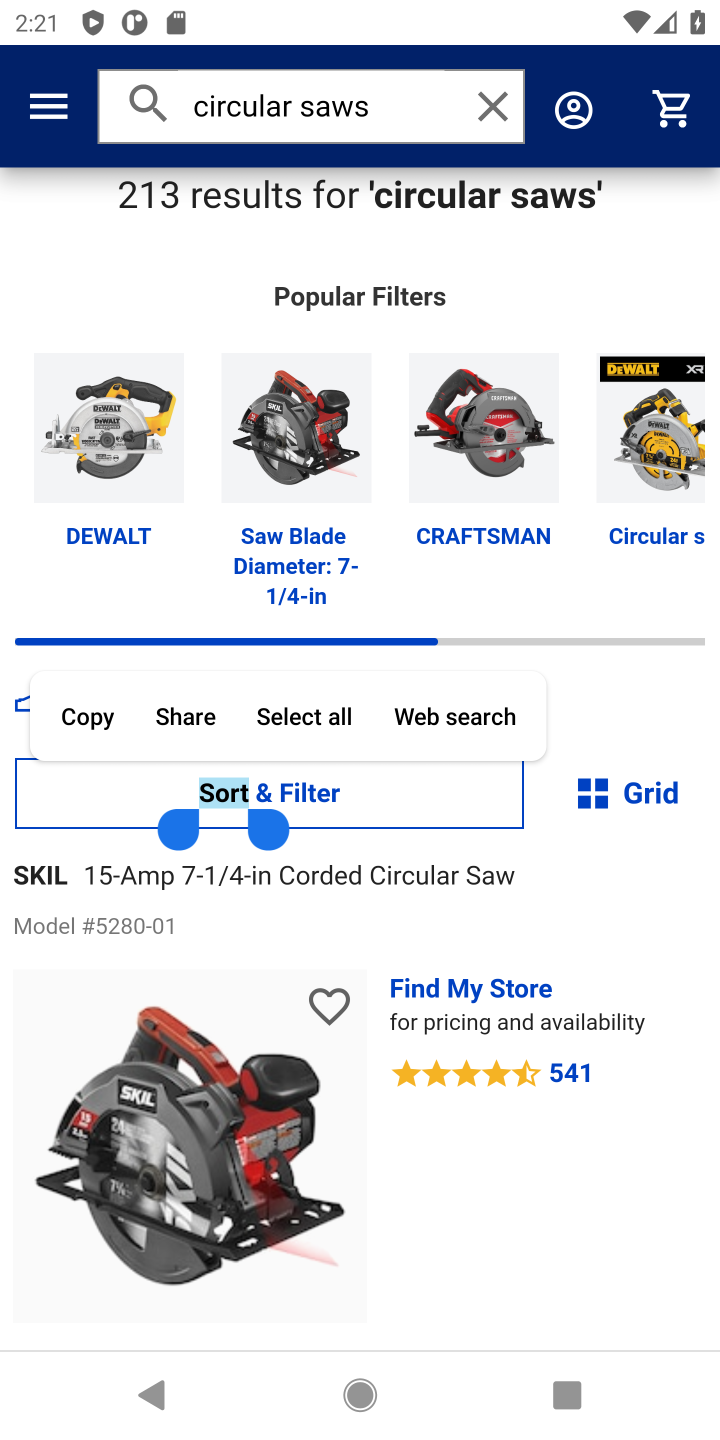
Step 33: task complete